Your task to perform on an android device: What's on my calendar today? Image 0: 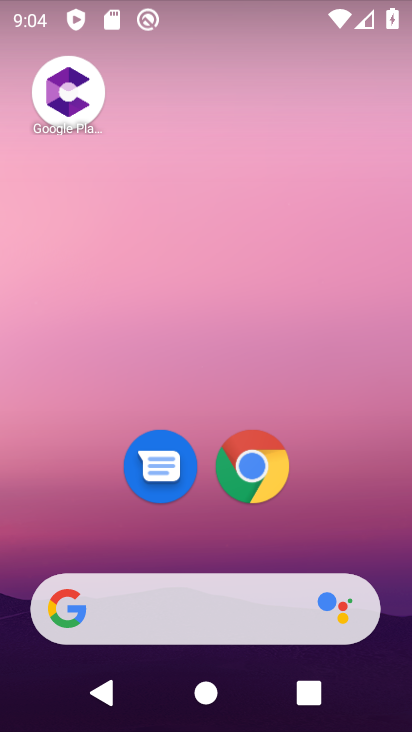
Step 0: drag from (262, 548) to (168, 6)
Your task to perform on an android device: What's on my calendar today? Image 1: 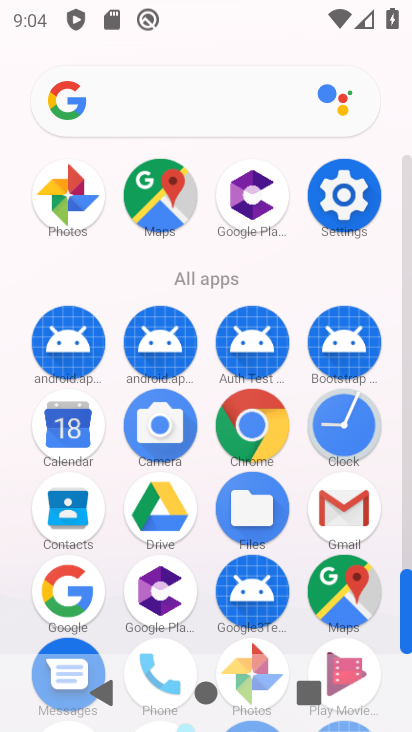
Step 1: drag from (283, 517) to (248, 114)
Your task to perform on an android device: What's on my calendar today? Image 2: 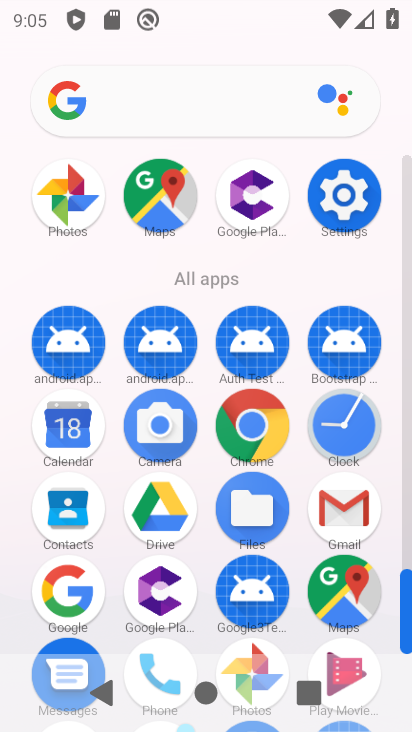
Step 2: drag from (211, 475) to (182, 97)
Your task to perform on an android device: What's on my calendar today? Image 3: 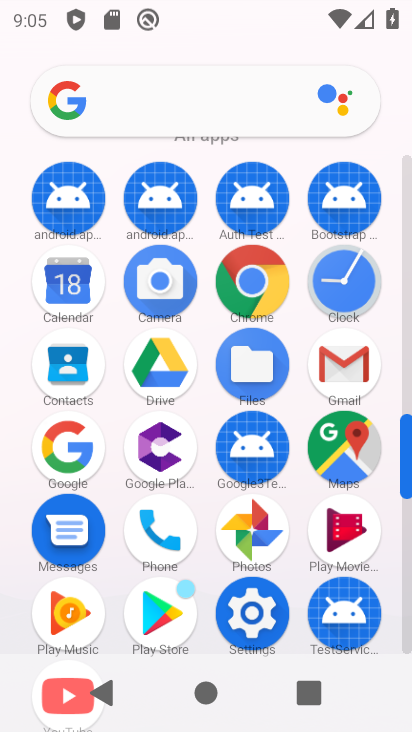
Step 3: drag from (204, 435) to (190, 150)
Your task to perform on an android device: What's on my calendar today? Image 4: 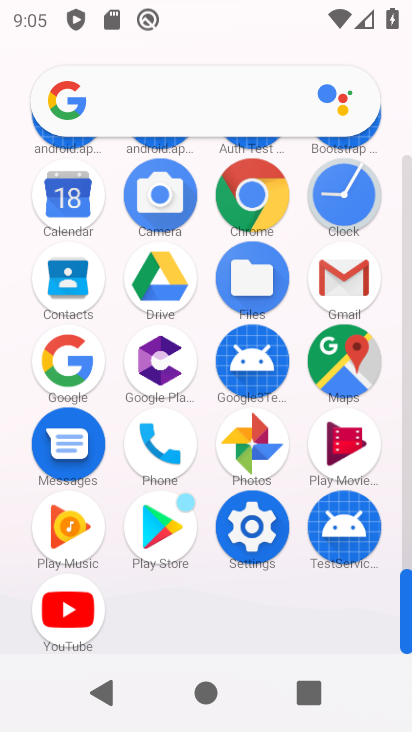
Step 4: drag from (204, 450) to (222, 114)
Your task to perform on an android device: What's on my calendar today? Image 5: 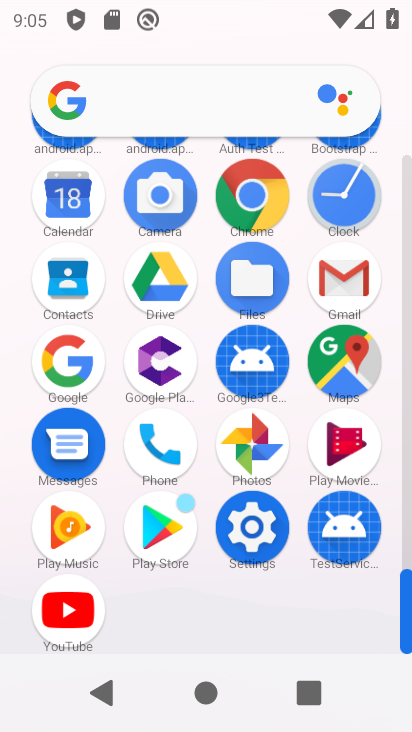
Step 5: drag from (195, 360) to (190, 164)
Your task to perform on an android device: What's on my calendar today? Image 6: 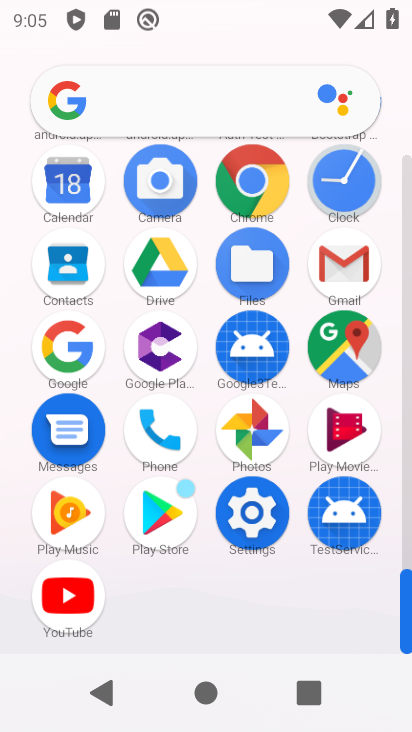
Step 6: drag from (193, 326) to (194, 118)
Your task to perform on an android device: What's on my calendar today? Image 7: 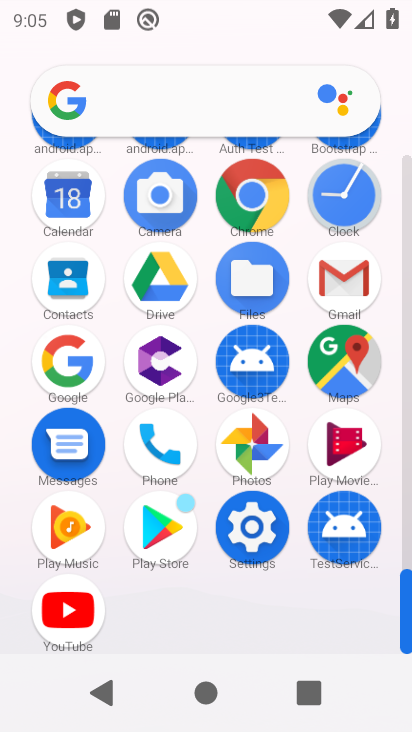
Step 7: drag from (217, 465) to (211, 103)
Your task to perform on an android device: What's on my calendar today? Image 8: 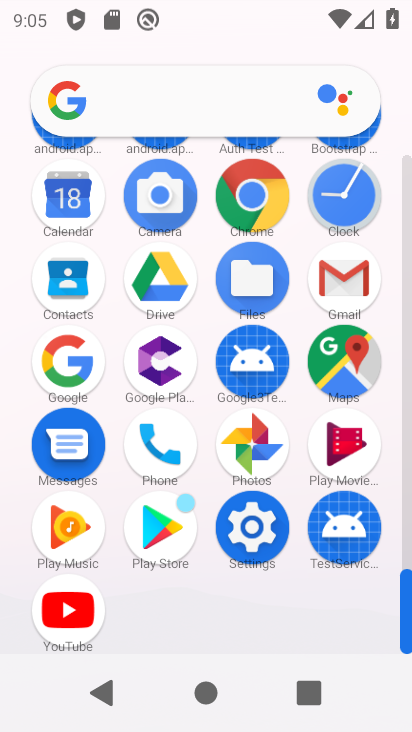
Step 8: drag from (193, 277) to (236, 563)
Your task to perform on an android device: What's on my calendar today? Image 9: 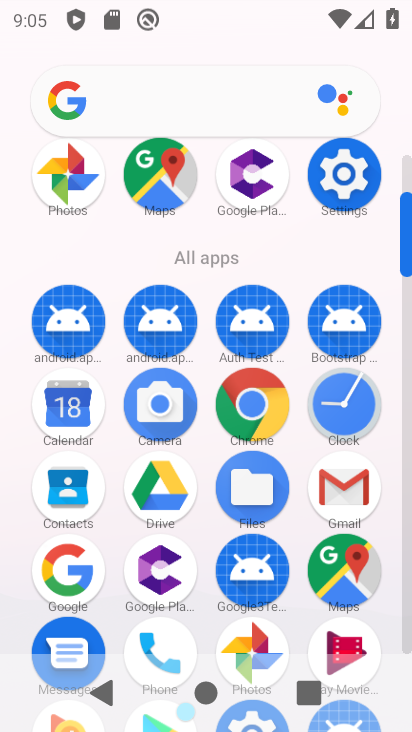
Step 9: drag from (246, 339) to (212, 553)
Your task to perform on an android device: What's on my calendar today? Image 10: 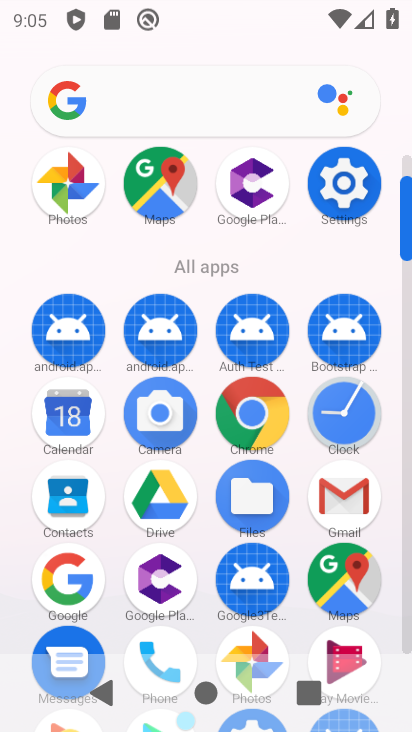
Step 10: drag from (184, 500) to (203, 578)
Your task to perform on an android device: What's on my calendar today? Image 11: 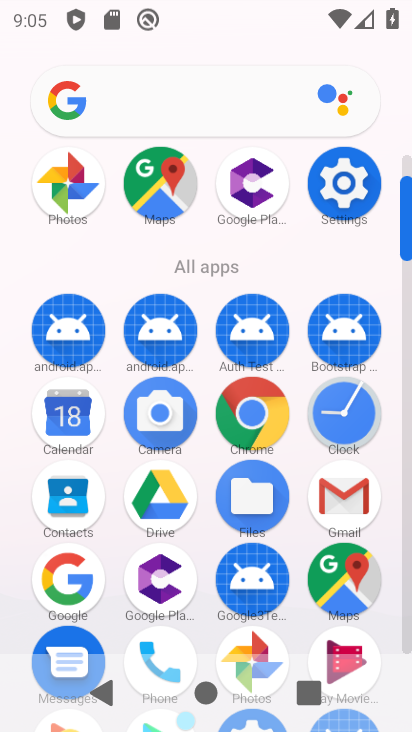
Step 11: drag from (247, 442) to (255, 496)
Your task to perform on an android device: What's on my calendar today? Image 12: 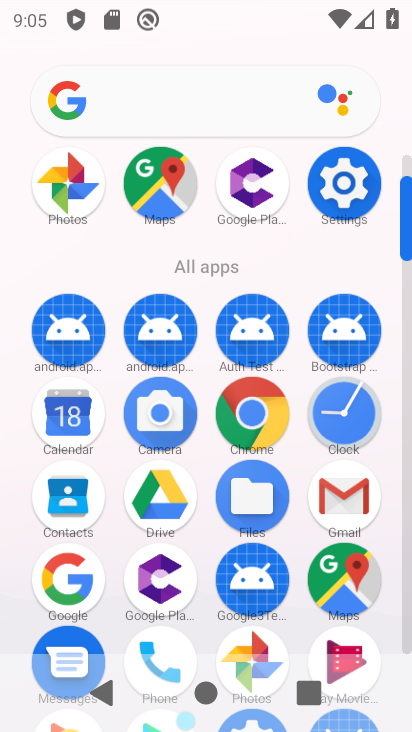
Step 12: drag from (188, 445) to (141, 105)
Your task to perform on an android device: What's on my calendar today? Image 13: 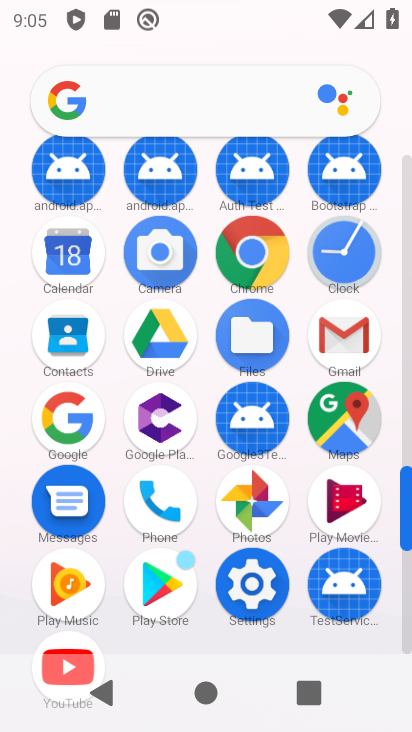
Step 13: drag from (169, 397) to (166, 67)
Your task to perform on an android device: What's on my calendar today? Image 14: 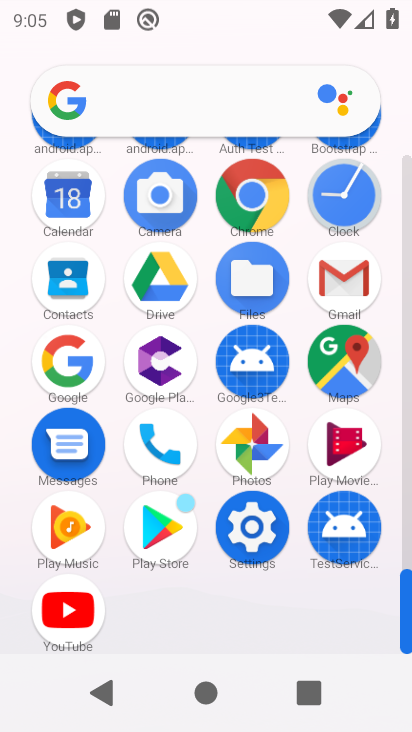
Step 14: drag from (222, 464) to (179, 40)
Your task to perform on an android device: What's on my calendar today? Image 15: 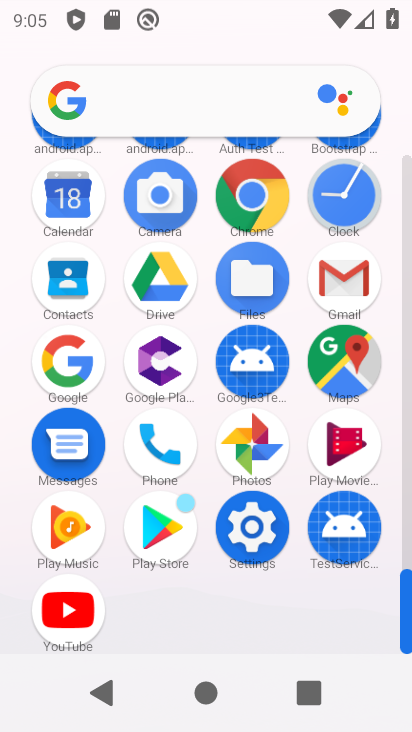
Step 15: drag from (194, 376) to (196, 512)
Your task to perform on an android device: What's on my calendar today? Image 16: 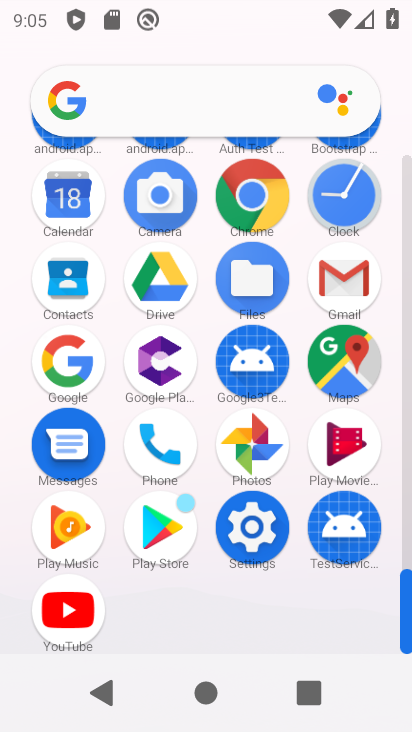
Step 16: drag from (205, 289) to (234, 595)
Your task to perform on an android device: What's on my calendar today? Image 17: 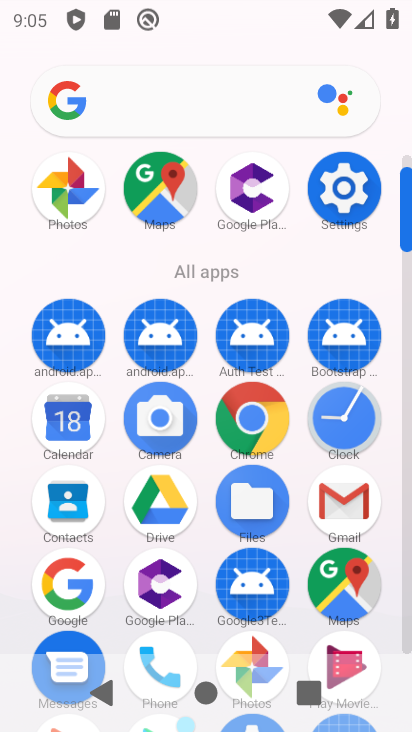
Step 17: drag from (242, 285) to (242, 518)
Your task to perform on an android device: What's on my calendar today? Image 18: 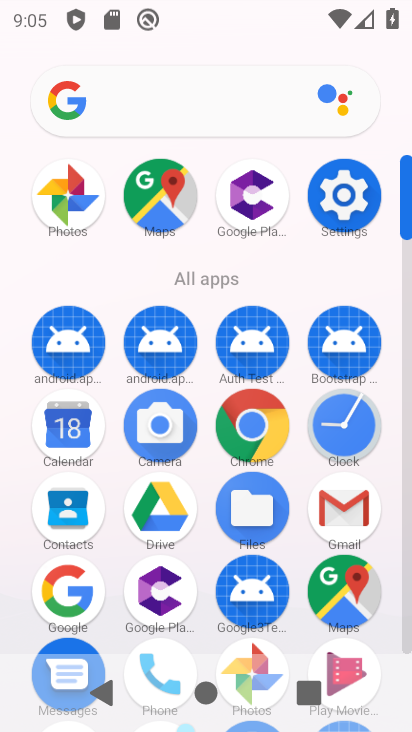
Step 18: drag from (217, 367) to (192, 117)
Your task to perform on an android device: What's on my calendar today? Image 19: 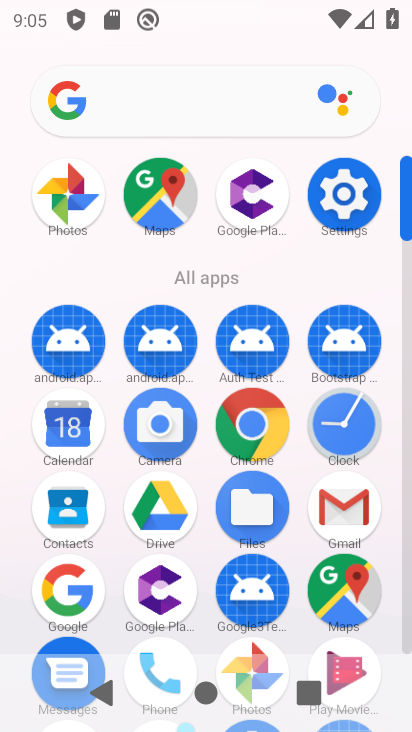
Step 19: drag from (188, 330) to (190, 112)
Your task to perform on an android device: What's on my calendar today? Image 20: 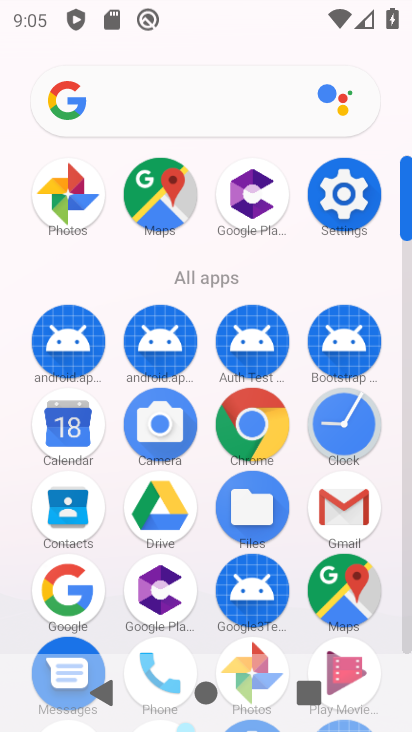
Step 20: drag from (196, 386) to (222, 97)
Your task to perform on an android device: What's on my calendar today? Image 21: 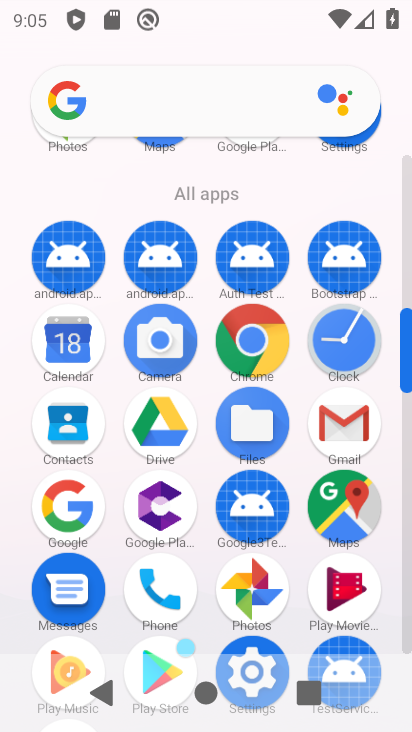
Step 21: drag from (202, 348) to (192, 135)
Your task to perform on an android device: What's on my calendar today? Image 22: 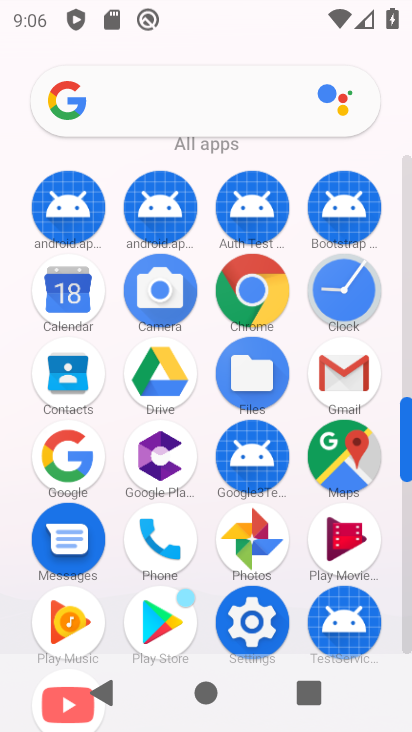
Step 22: click (68, 291)
Your task to perform on an android device: What's on my calendar today? Image 23: 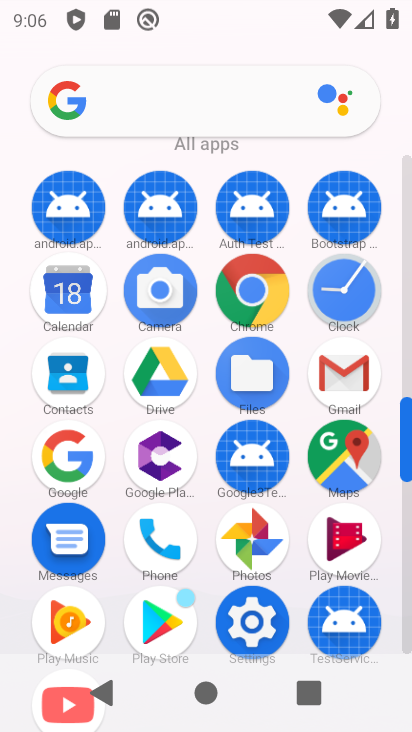
Step 23: click (67, 292)
Your task to perform on an android device: What's on my calendar today? Image 24: 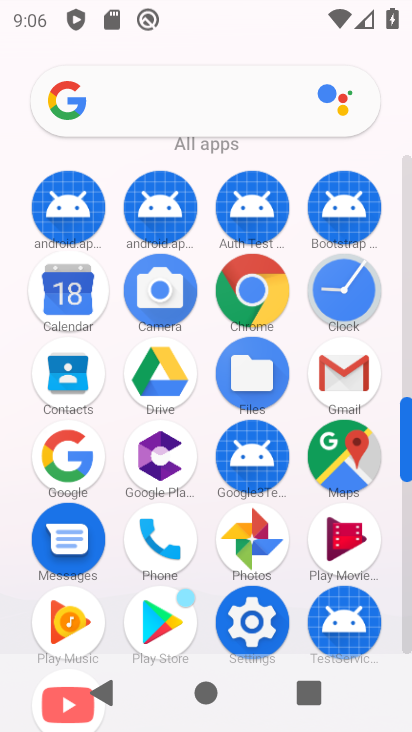
Step 24: click (67, 292)
Your task to perform on an android device: What's on my calendar today? Image 25: 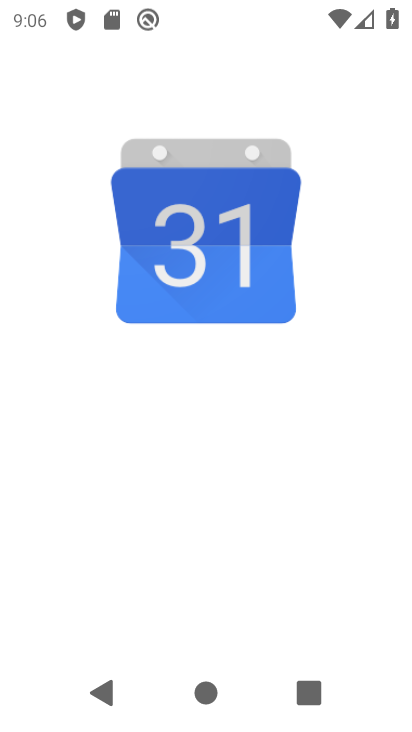
Step 25: click (74, 287)
Your task to perform on an android device: What's on my calendar today? Image 26: 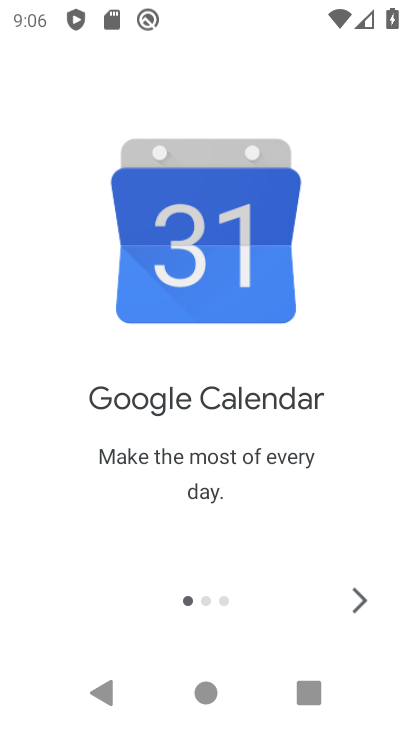
Step 26: click (364, 596)
Your task to perform on an android device: What's on my calendar today? Image 27: 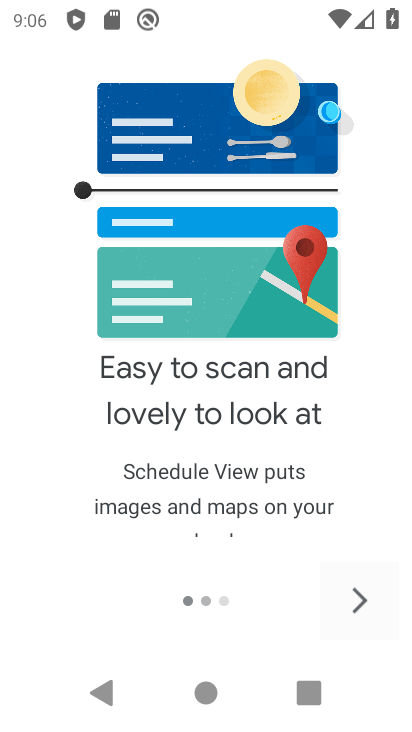
Step 27: click (364, 596)
Your task to perform on an android device: What's on my calendar today? Image 28: 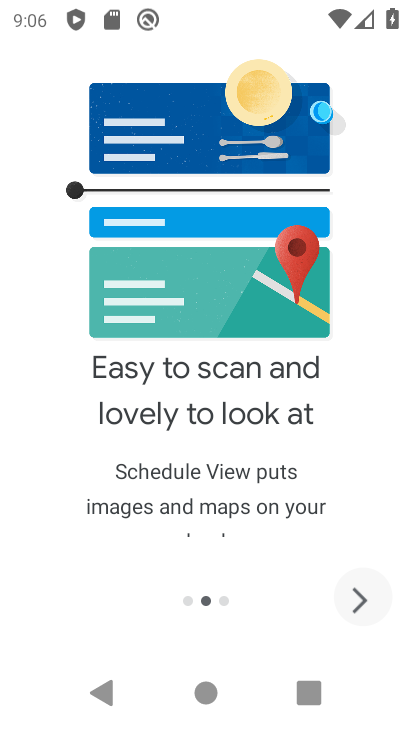
Step 28: click (364, 596)
Your task to perform on an android device: What's on my calendar today? Image 29: 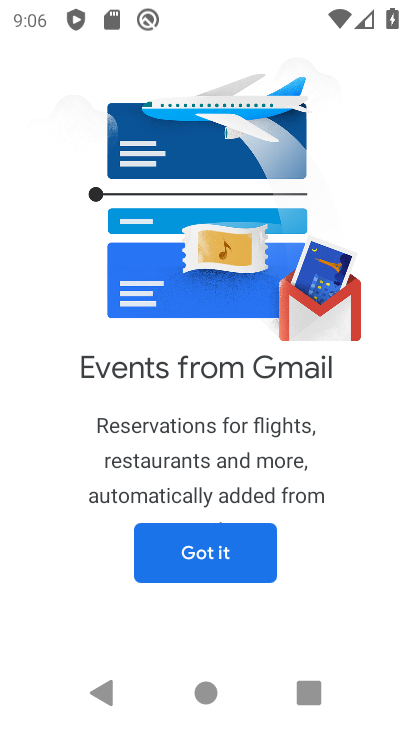
Step 29: click (364, 596)
Your task to perform on an android device: What's on my calendar today? Image 30: 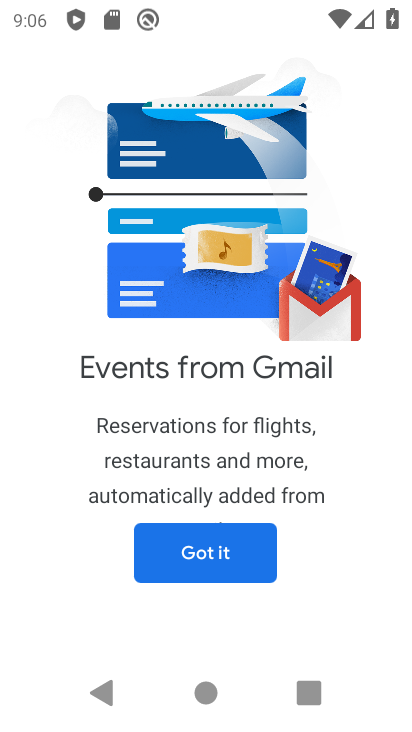
Step 30: click (364, 596)
Your task to perform on an android device: What's on my calendar today? Image 31: 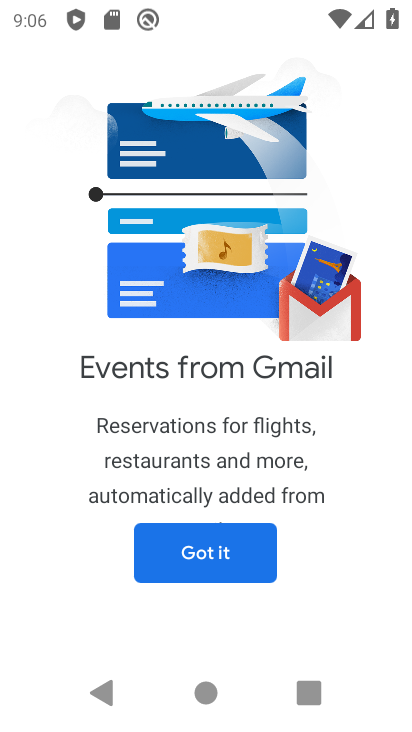
Step 31: click (364, 596)
Your task to perform on an android device: What's on my calendar today? Image 32: 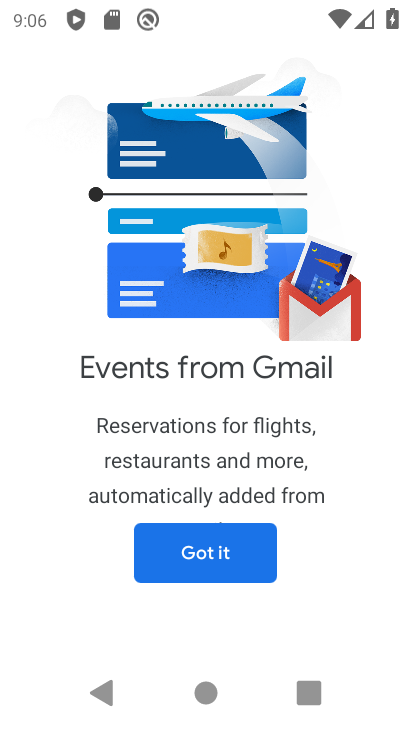
Step 32: click (225, 559)
Your task to perform on an android device: What's on my calendar today? Image 33: 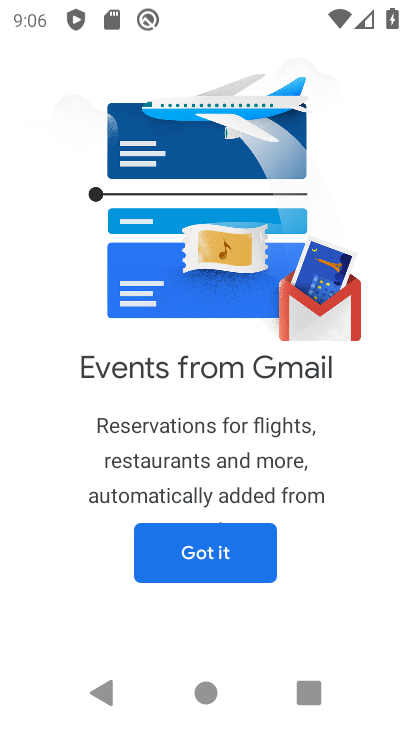
Step 33: click (225, 559)
Your task to perform on an android device: What's on my calendar today? Image 34: 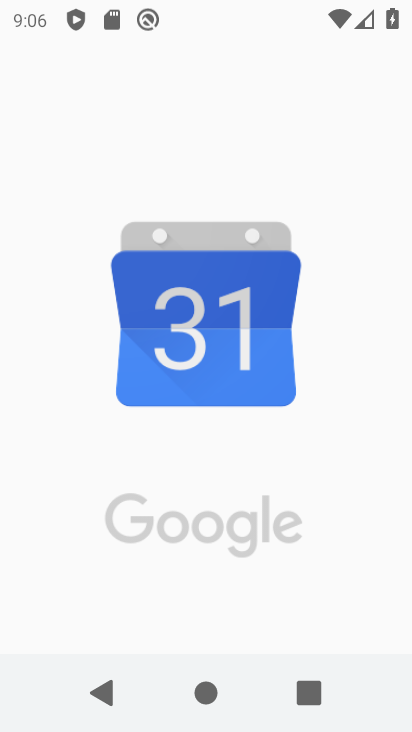
Step 34: click (224, 559)
Your task to perform on an android device: What's on my calendar today? Image 35: 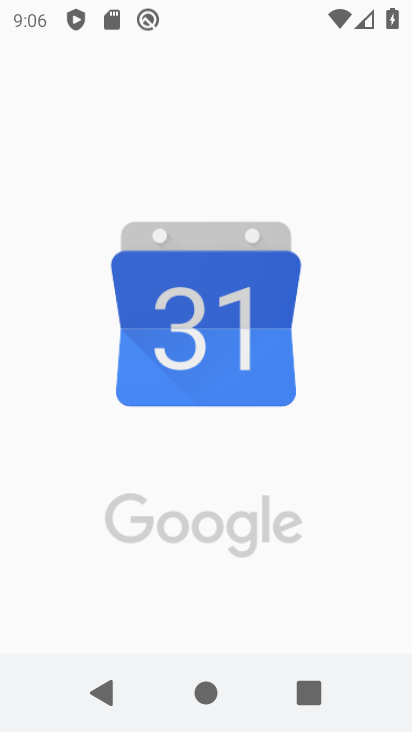
Step 35: click (223, 559)
Your task to perform on an android device: What's on my calendar today? Image 36: 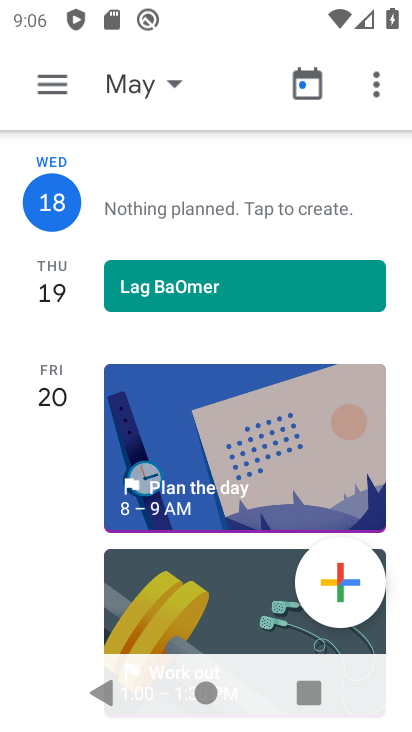
Step 36: click (122, 144)
Your task to perform on an android device: What's on my calendar today? Image 37: 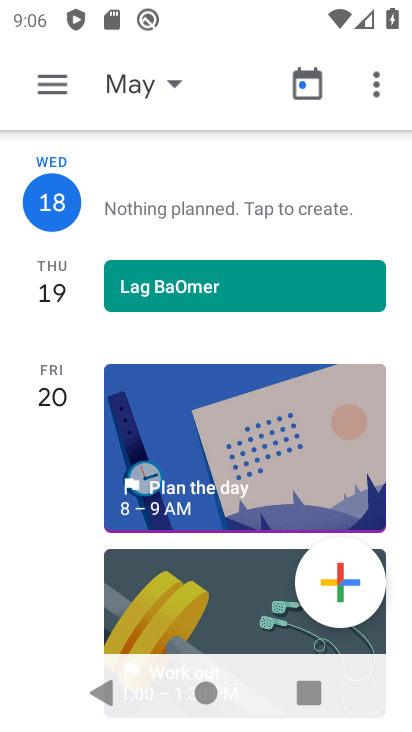
Step 37: drag from (166, 367) to (169, 112)
Your task to perform on an android device: What's on my calendar today? Image 38: 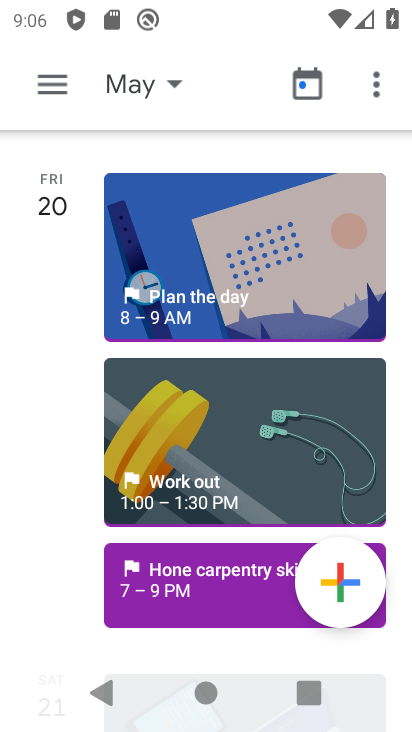
Step 38: drag from (203, 284) to (217, 534)
Your task to perform on an android device: What's on my calendar today? Image 39: 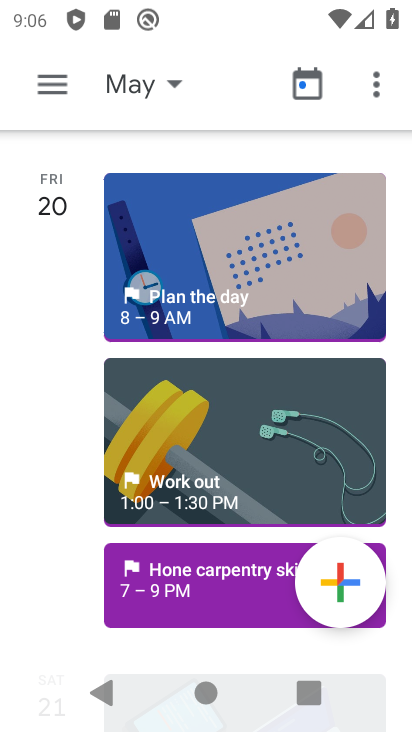
Step 39: drag from (166, 258) to (240, 567)
Your task to perform on an android device: What's on my calendar today? Image 40: 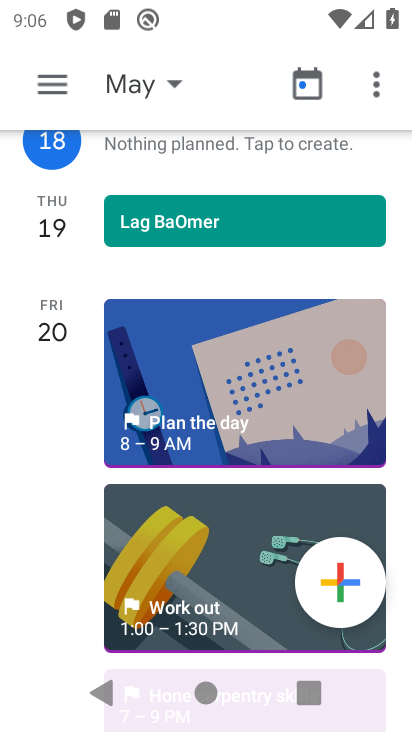
Step 40: click (172, 220)
Your task to perform on an android device: What's on my calendar today? Image 41: 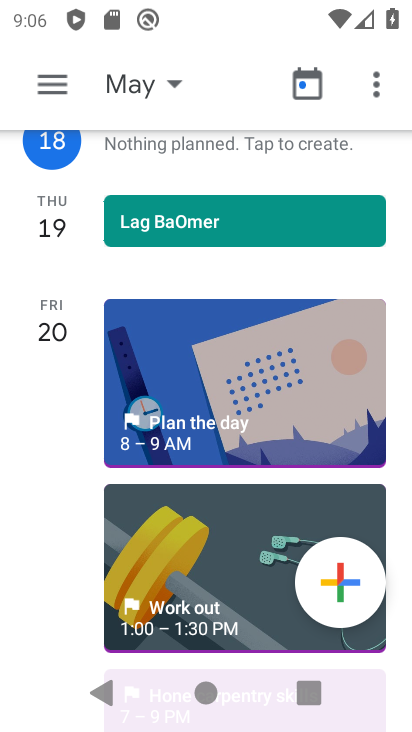
Step 41: click (172, 220)
Your task to perform on an android device: What's on my calendar today? Image 42: 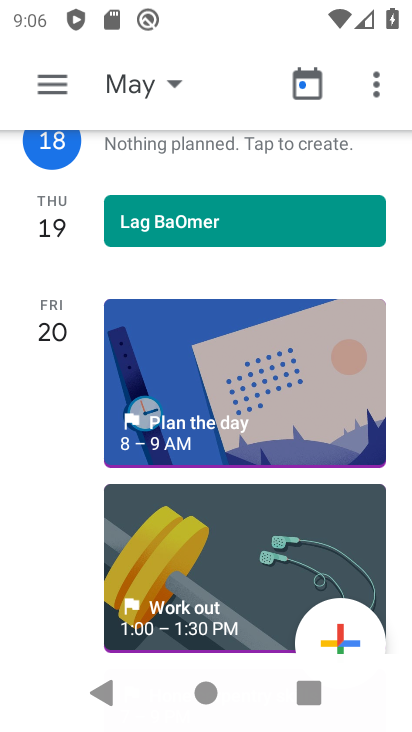
Step 42: click (172, 220)
Your task to perform on an android device: What's on my calendar today? Image 43: 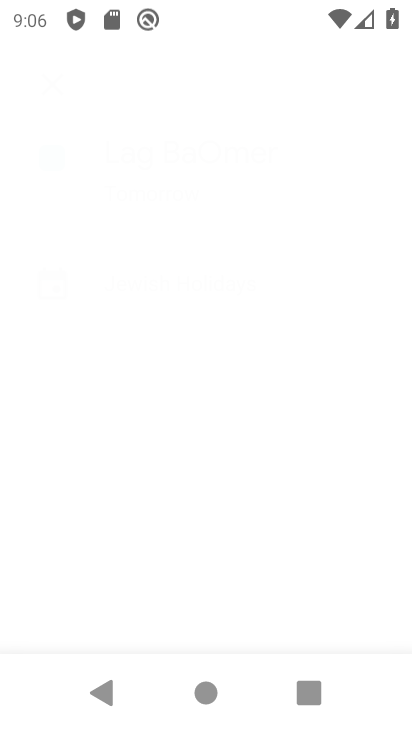
Step 43: click (172, 221)
Your task to perform on an android device: What's on my calendar today? Image 44: 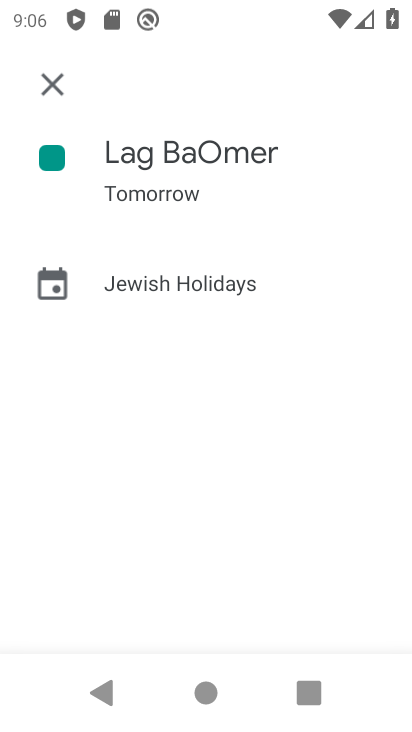
Step 44: click (172, 221)
Your task to perform on an android device: What's on my calendar today? Image 45: 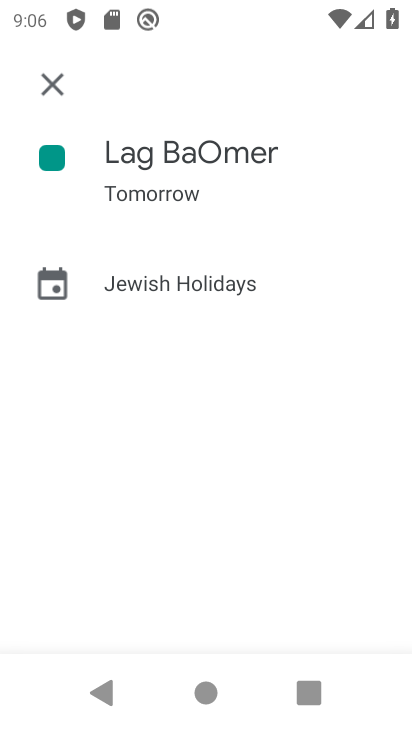
Step 45: click (34, 86)
Your task to perform on an android device: What's on my calendar today? Image 46: 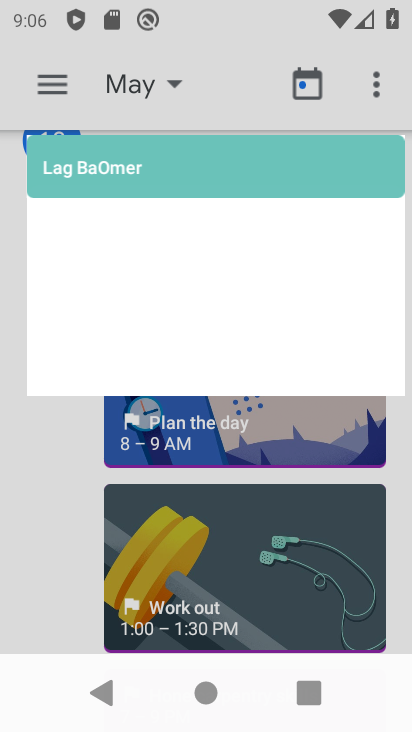
Step 46: click (36, 84)
Your task to perform on an android device: What's on my calendar today? Image 47: 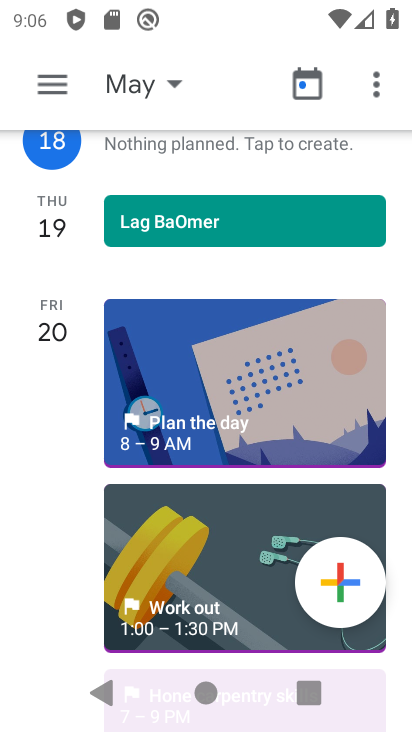
Step 47: click (39, 84)
Your task to perform on an android device: What's on my calendar today? Image 48: 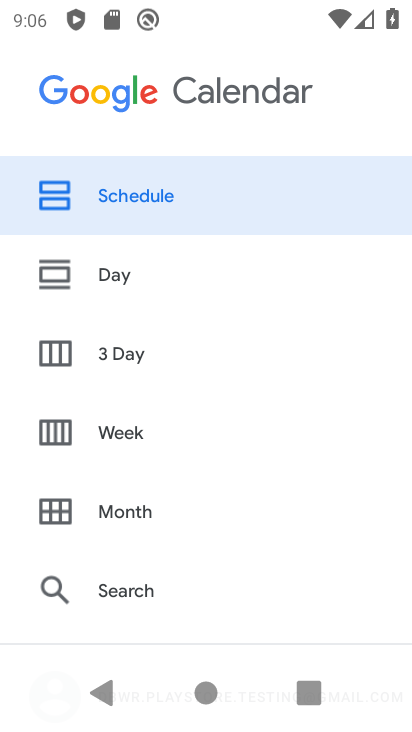
Step 48: click (148, 199)
Your task to perform on an android device: What's on my calendar today? Image 49: 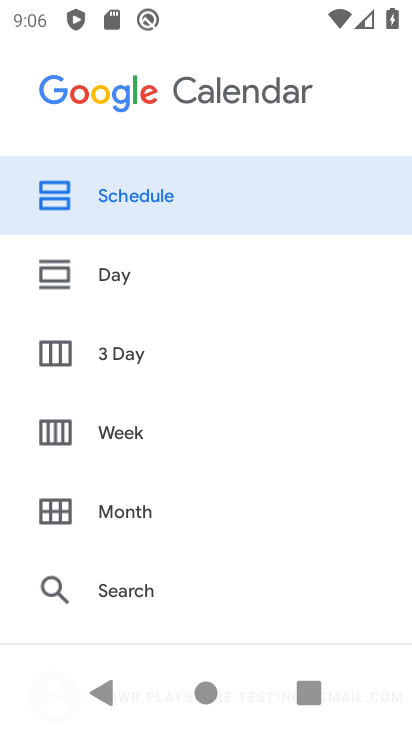
Step 49: click (148, 199)
Your task to perform on an android device: What's on my calendar today? Image 50: 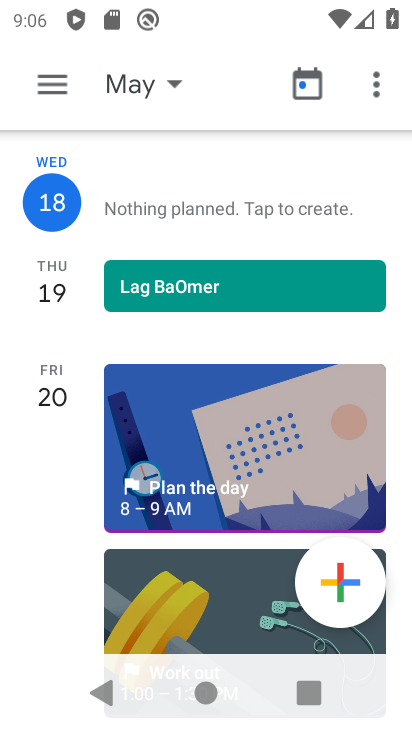
Step 50: drag from (192, 443) to (162, 234)
Your task to perform on an android device: What's on my calendar today? Image 51: 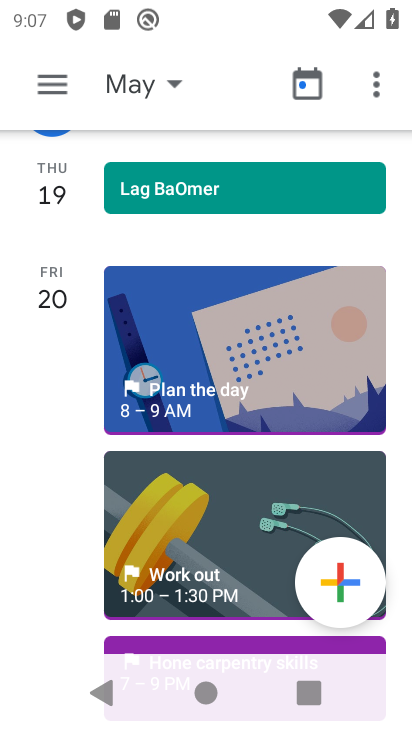
Step 51: drag from (209, 438) to (204, 80)
Your task to perform on an android device: What's on my calendar today? Image 52: 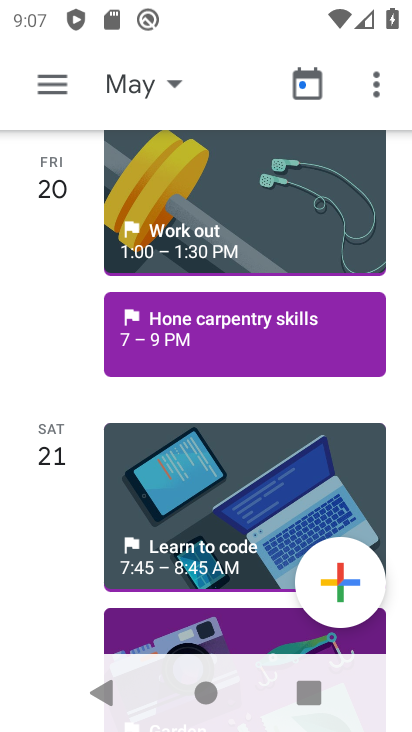
Step 52: drag from (189, 168) to (178, 54)
Your task to perform on an android device: What's on my calendar today? Image 53: 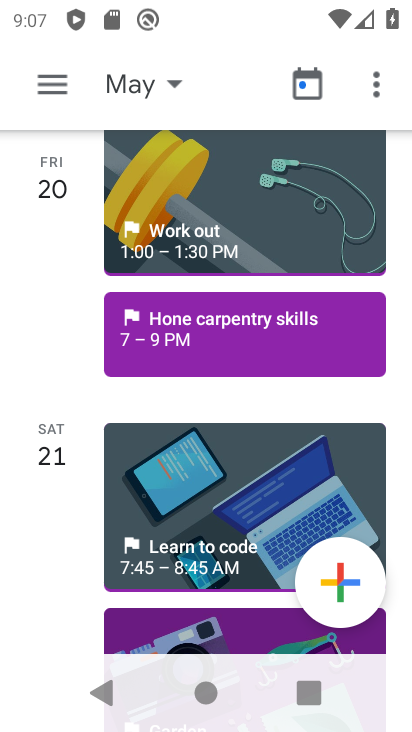
Step 53: drag from (175, 49) to (206, 72)
Your task to perform on an android device: What's on my calendar today? Image 54: 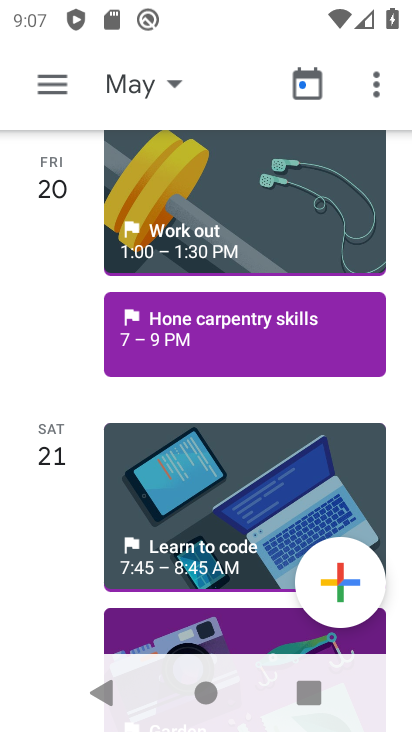
Step 54: drag from (239, 442) to (206, 128)
Your task to perform on an android device: What's on my calendar today? Image 55: 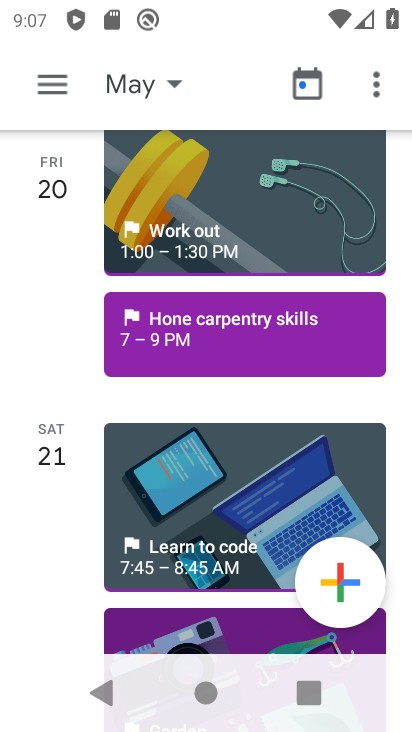
Step 55: drag from (224, 483) to (216, 203)
Your task to perform on an android device: What's on my calendar today? Image 56: 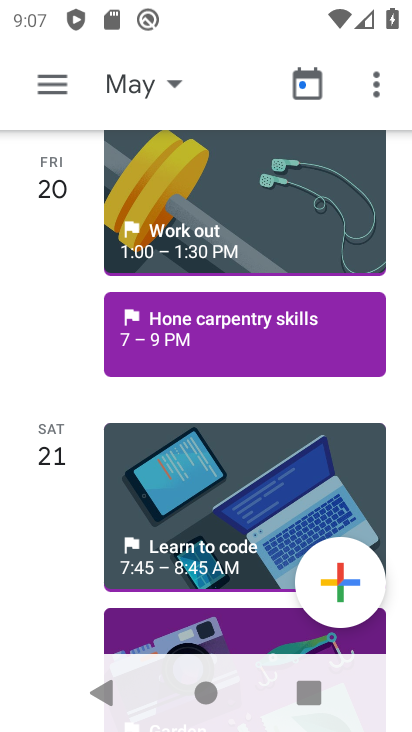
Step 56: drag from (209, 495) to (134, 122)
Your task to perform on an android device: What's on my calendar today? Image 57: 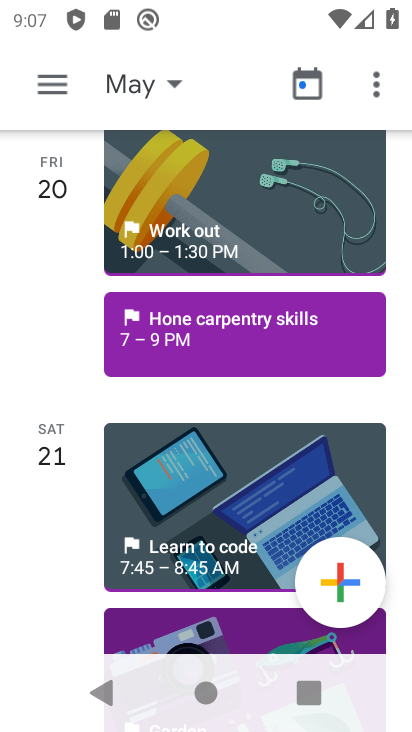
Step 57: drag from (241, 535) to (232, 241)
Your task to perform on an android device: What's on my calendar today? Image 58: 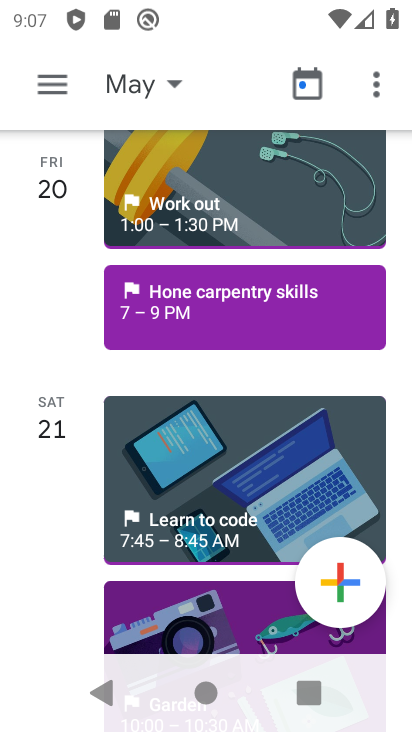
Step 58: drag from (217, 380) to (205, 107)
Your task to perform on an android device: What's on my calendar today? Image 59: 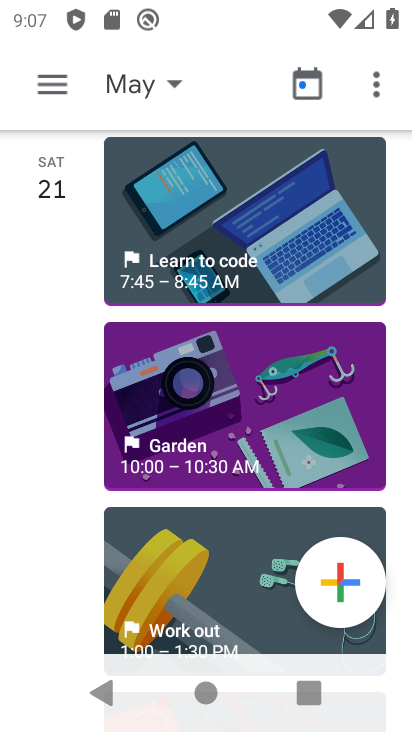
Step 59: drag from (184, 256) to (191, 135)
Your task to perform on an android device: What's on my calendar today? Image 60: 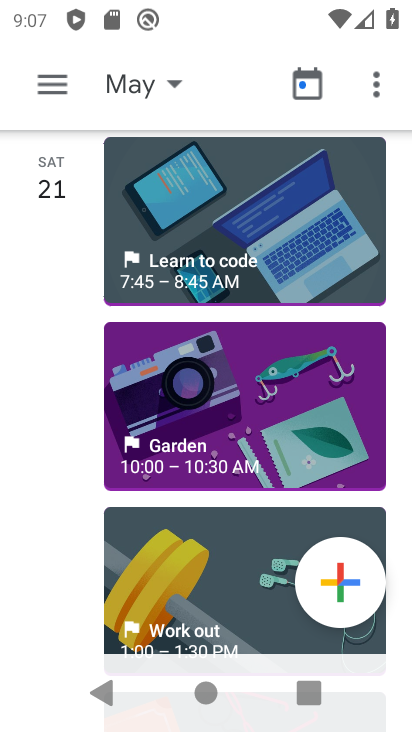
Step 60: press back button
Your task to perform on an android device: What's on my calendar today? Image 61: 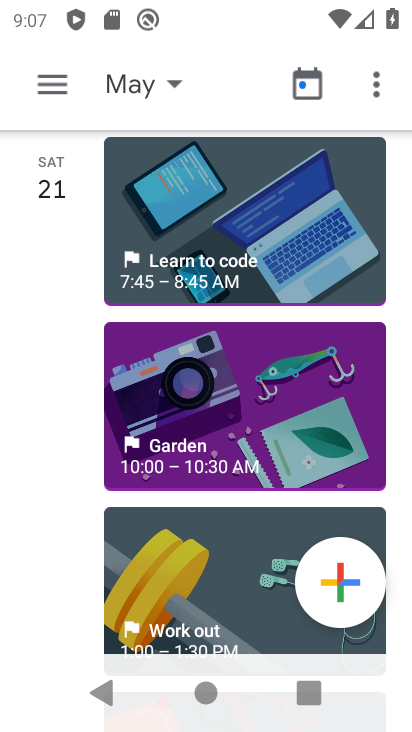
Step 61: press back button
Your task to perform on an android device: What's on my calendar today? Image 62: 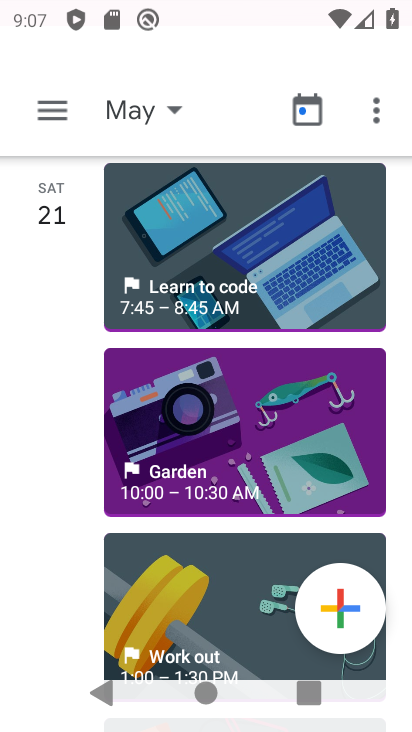
Step 62: drag from (206, 79) to (186, 44)
Your task to perform on an android device: What's on my calendar today? Image 63: 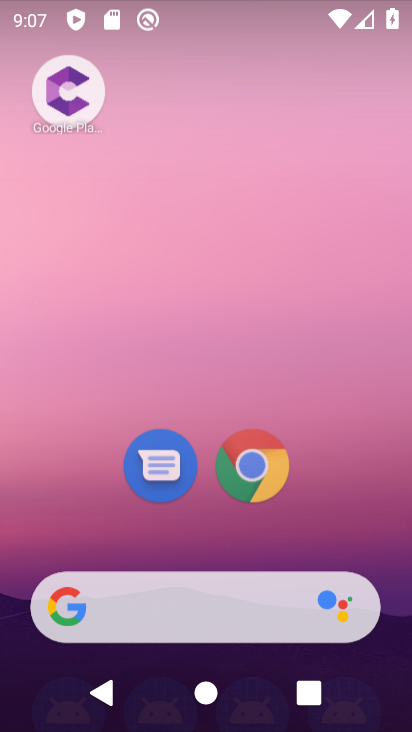
Step 63: drag from (221, 290) to (186, 112)
Your task to perform on an android device: What's on my calendar today? Image 64: 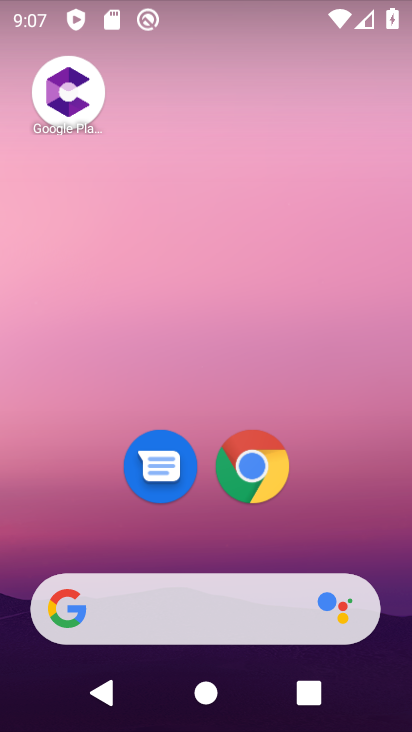
Step 64: drag from (130, 0) to (198, 33)
Your task to perform on an android device: What's on my calendar today? Image 65: 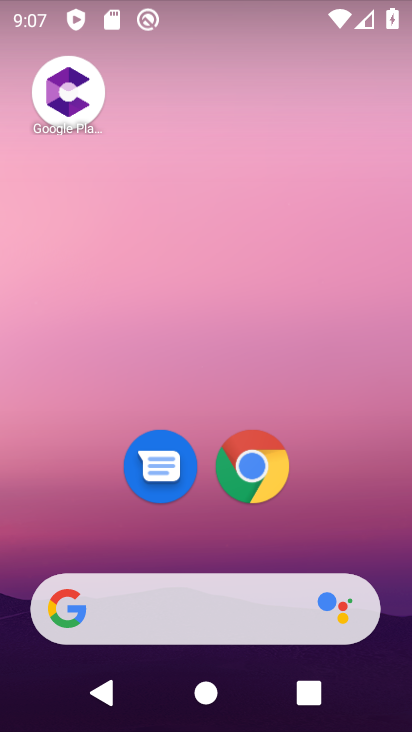
Step 65: drag from (200, 487) to (184, 174)
Your task to perform on an android device: What's on my calendar today? Image 66: 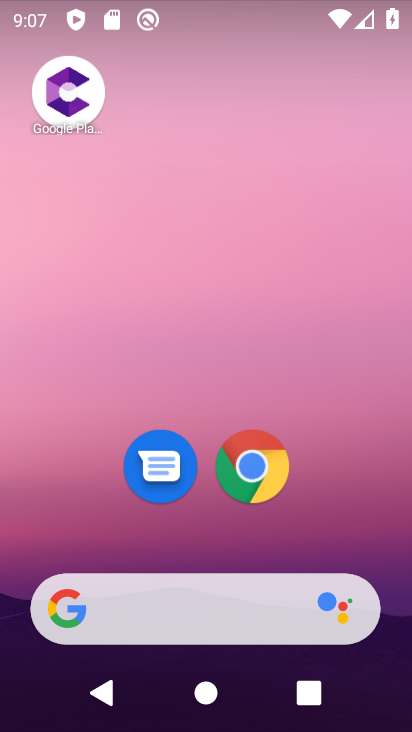
Step 66: drag from (190, 184) to (182, 148)
Your task to perform on an android device: What's on my calendar today? Image 67: 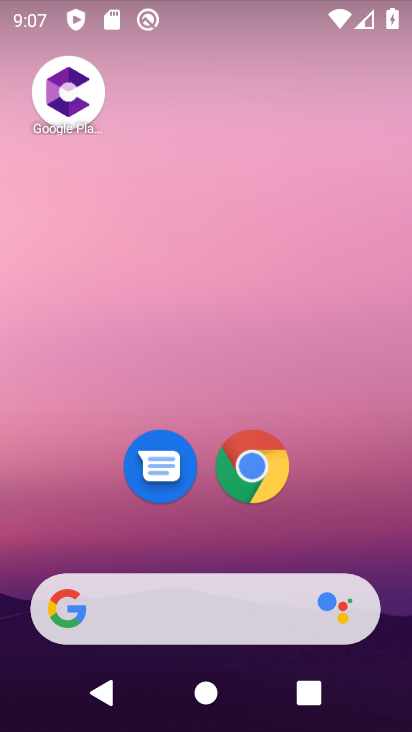
Step 67: drag from (163, 469) to (145, 40)
Your task to perform on an android device: What's on my calendar today? Image 68: 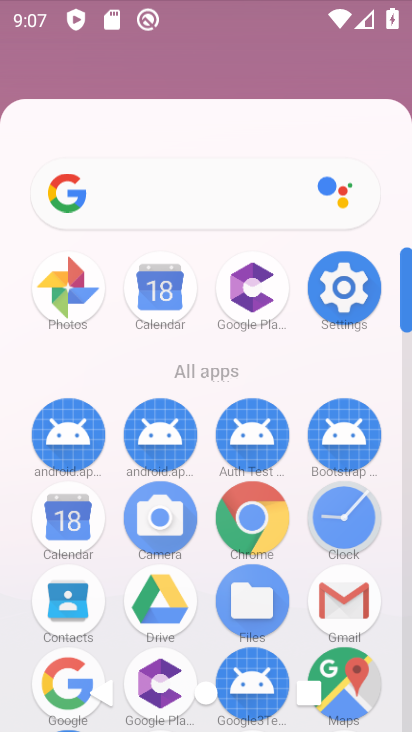
Step 68: drag from (284, 498) to (281, 189)
Your task to perform on an android device: What's on my calendar today? Image 69: 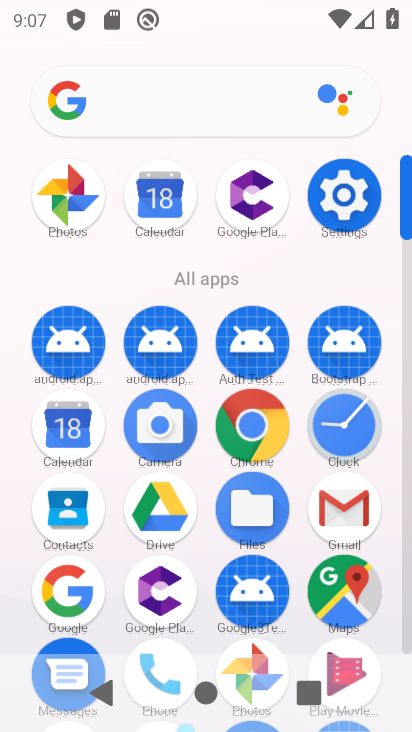
Step 69: drag from (262, 583) to (233, 10)
Your task to perform on an android device: What's on my calendar today? Image 70: 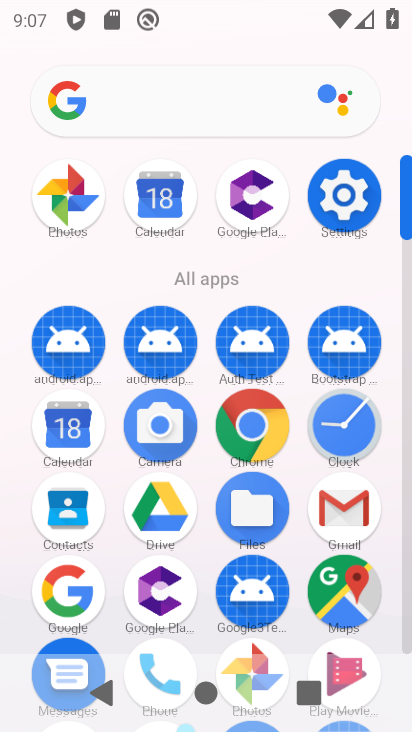
Step 70: drag from (235, 562) to (230, 7)
Your task to perform on an android device: What's on my calendar today? Image 71: 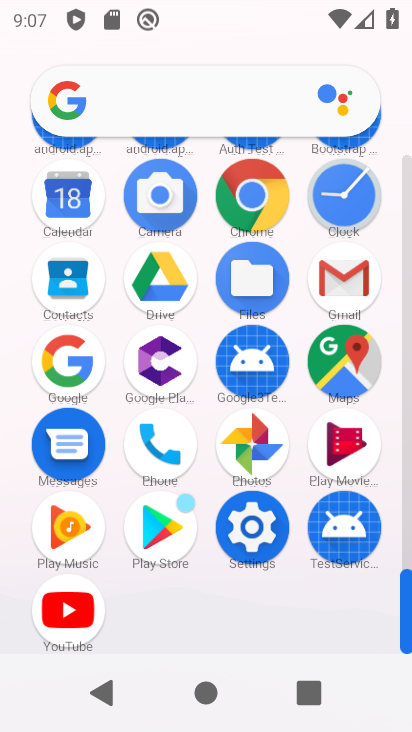
Step 71: click (206, 97)
Your task to perform on an android device: What's on my calendar today? Image 72: 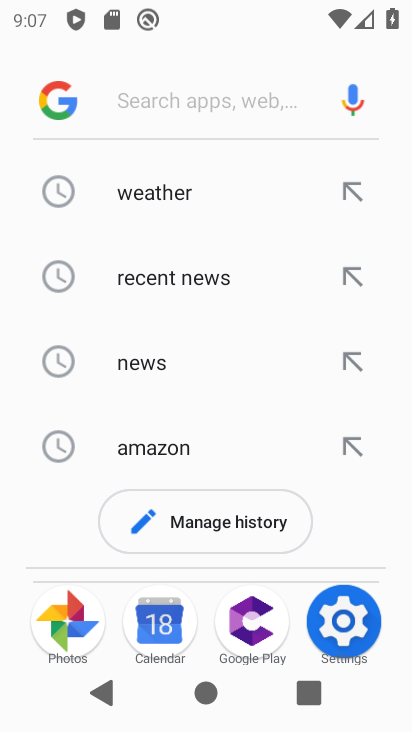
Step 72: press back button
Your task to perform on an android device: What's on my calendar today? Image 73: 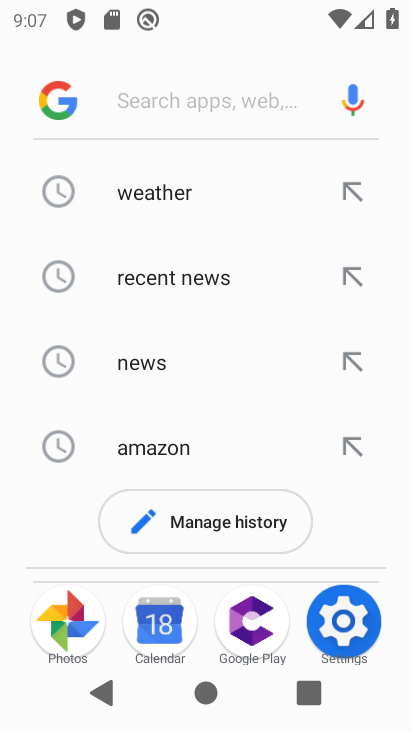
Step 73: press back button
Your task to perform on an android device: What's on my calendar today? Image 74: 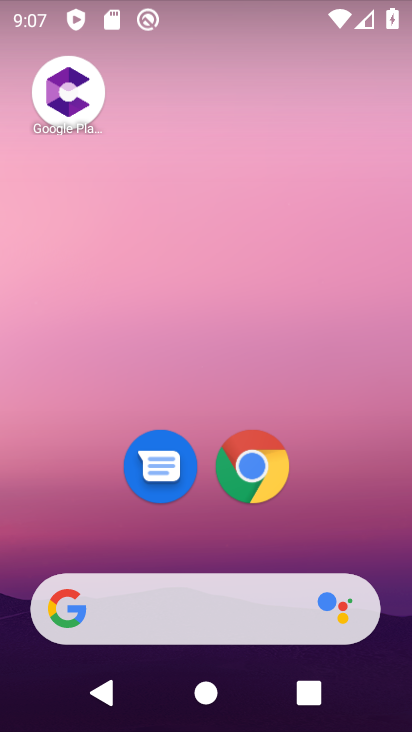
Step 74: click (353, 618)
Your task to perform on an android device: What's on my calendar today? Image 75: 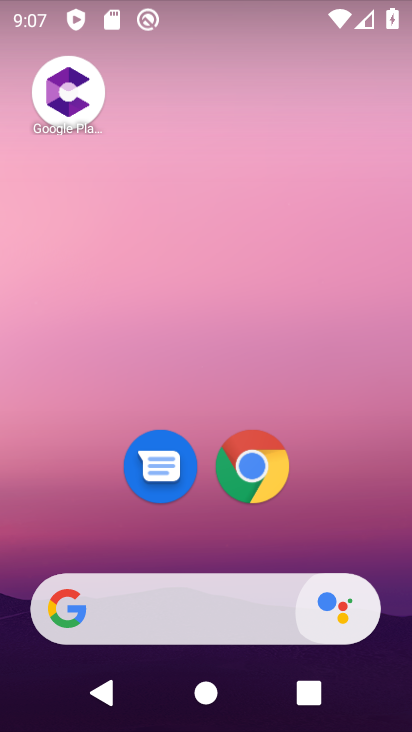
Step 75: click (350, 619)
Your task to perform on an android device: What's on my calendar today? Image 76: 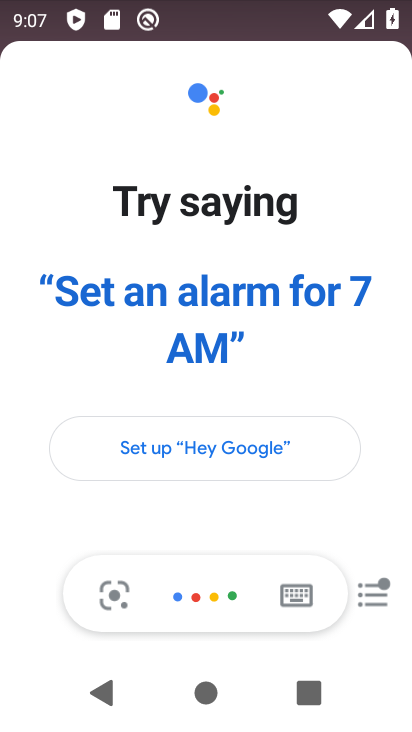
Step 76: click (345, 626)
Your task to perform on an android device: What's on my calendar today? Image 77: 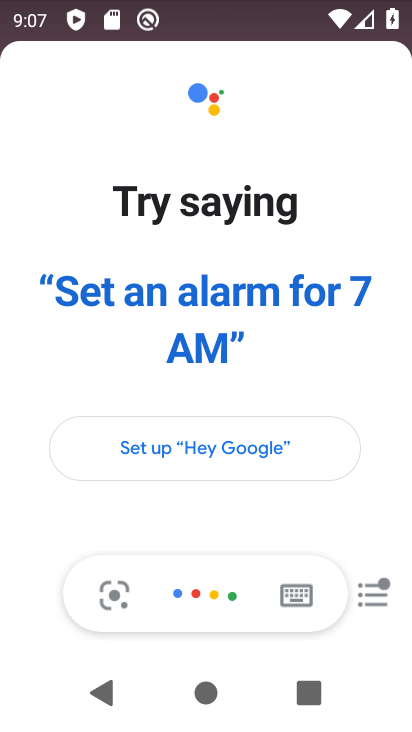
Step 77: click (343, 624)
Your task to perform on an android device: What's on my calendar today? Image 78: 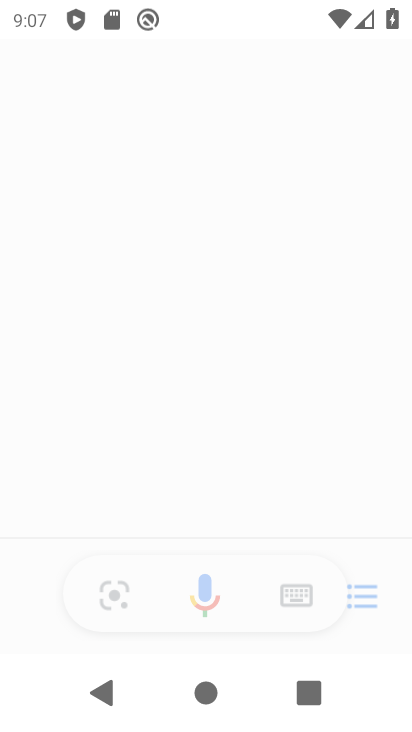
Step 78: drag from (332, 597) to (76, 32)
Your task to perform on an android device: What's on my calendar today? Image 79: 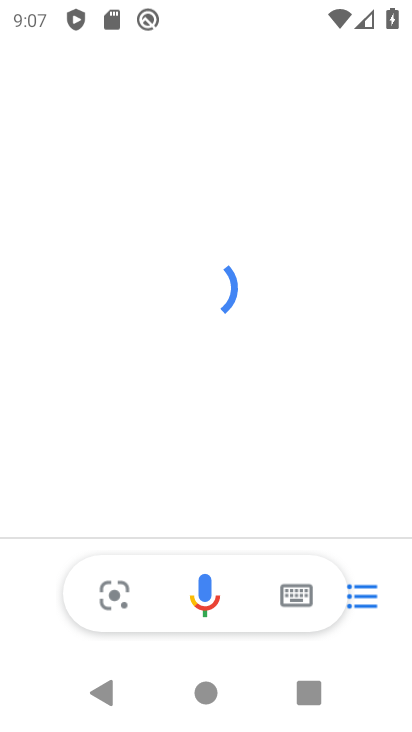
Step 79: press home button
Your task to perform on an android device: What's on my calendar today? Image 80: 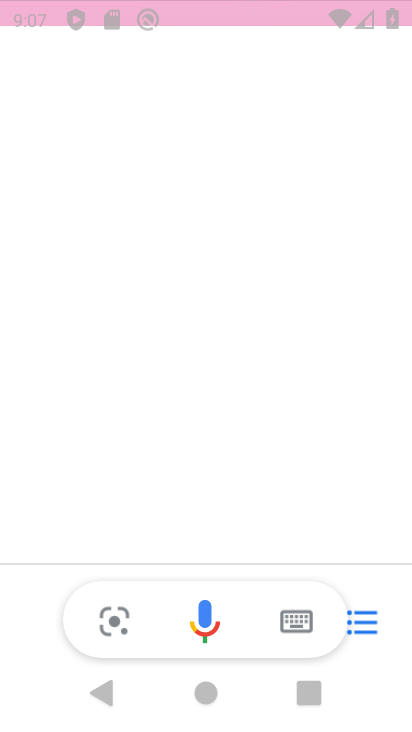
Step 80: press home button
Your task to perform on an android device: What's on my calendar today? Image 81: 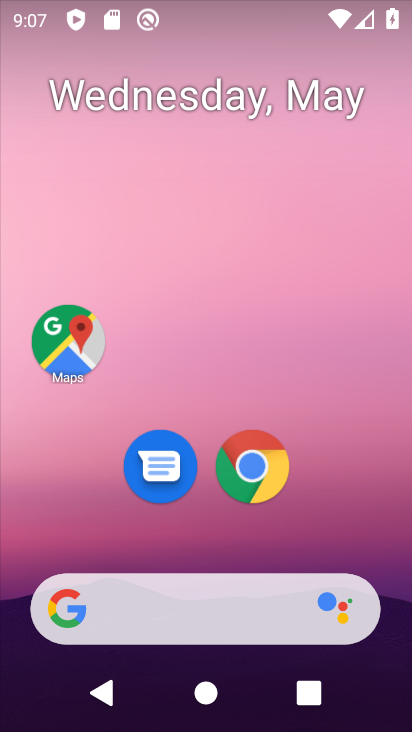
Step 81: drag from (304, 560) to (224, 150)
Your task to perform on an android device: What's on my calendar today? Image 82: 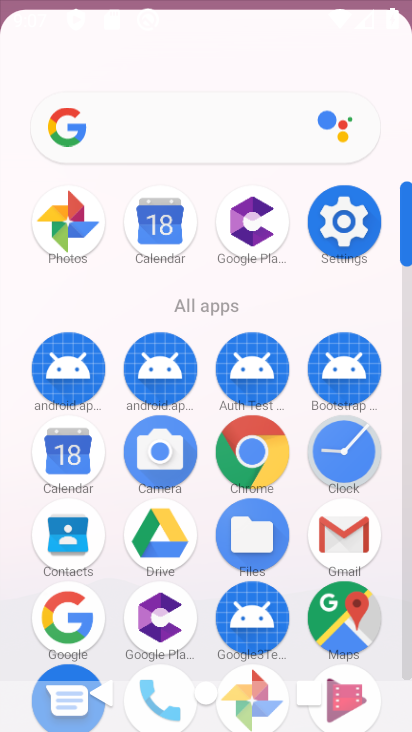
Step 82: drag from (264, 364) to (209, 78)
Your task to perform on an android device: What's on my calendar today? Image 83: 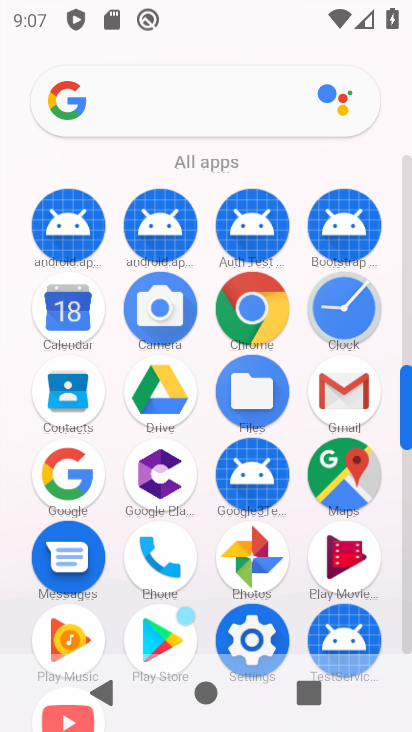
Step 83: click (208, 27)
Your task to perform on an android device: What's on my calendar today? Image 84: 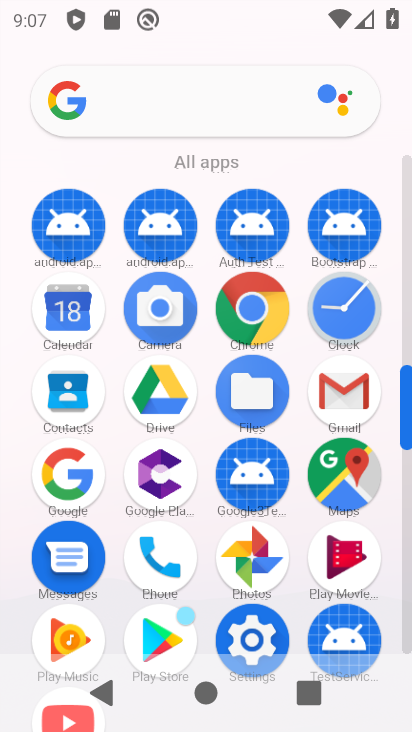
Step 84: click (70, 313)
Your task to perform on an android device: What's on my calendar today? Image 85: 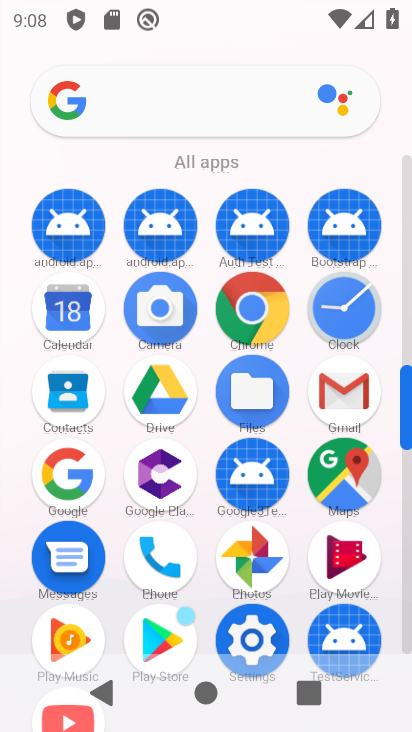
Step 85: click (70, 315)
Your task to perform on an android device: What's on my calendar today? Image 86: 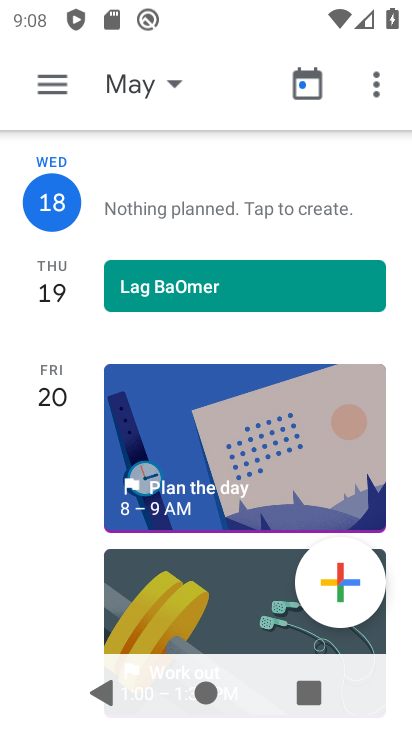
Step 86: click (67, 313)
Your task to perform on an android device: What's on my calendar today? Image 87: 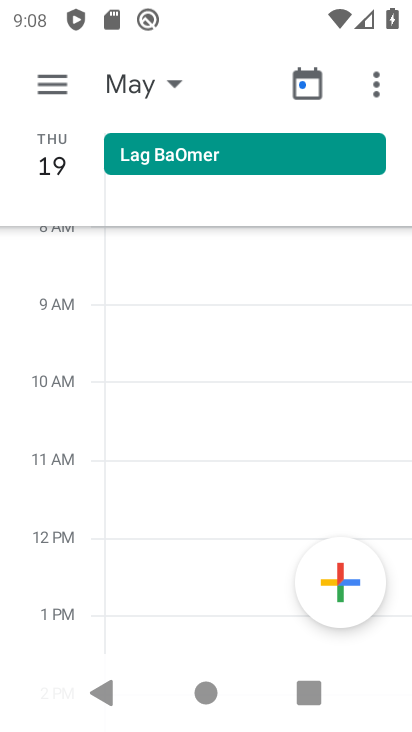
Step 87: click (155, 156)
Your task to perform on an android device: What's on my calendar today? Image 88: 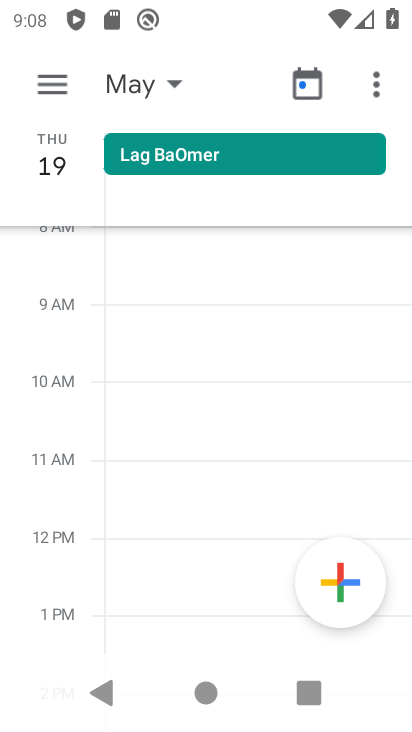
Step 88: click (154, 155)
Your task to perform on an android device: What's on my calendar today? Image 89: 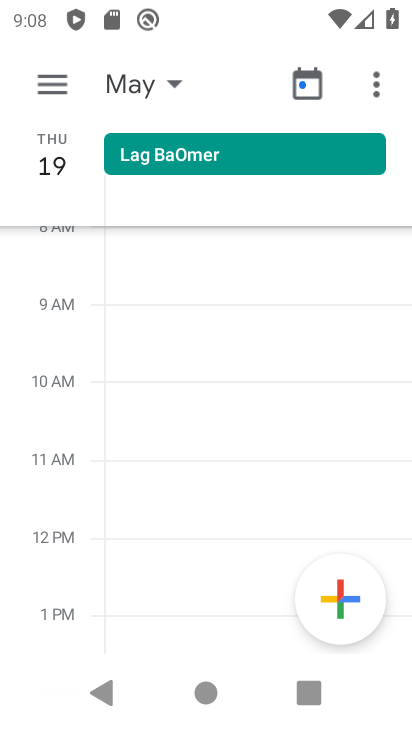
Step 89: click (154, 155)
Your task to perform on an android device: What's on my calendar today? Image 90: 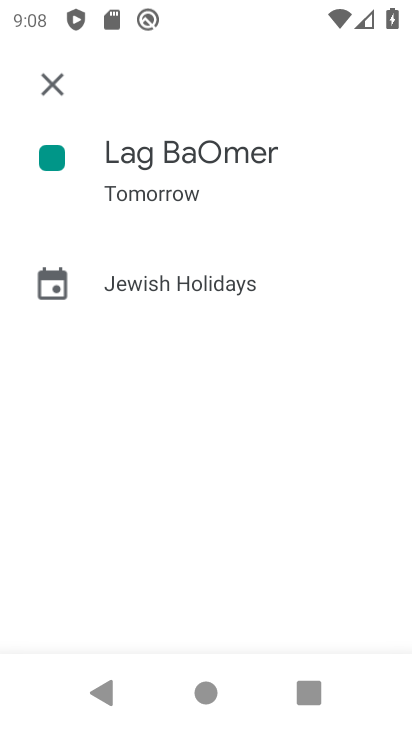
Step 90: click (156, 154)
Your task to perform on an android device: What's on my calendar today? Image 91: 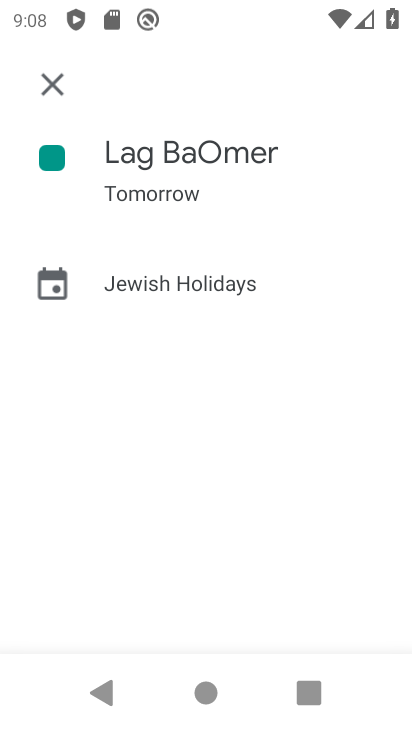
Step 91: click (56, 85)
Your task to perform on an android device: What's on my calendar today? Image 92: 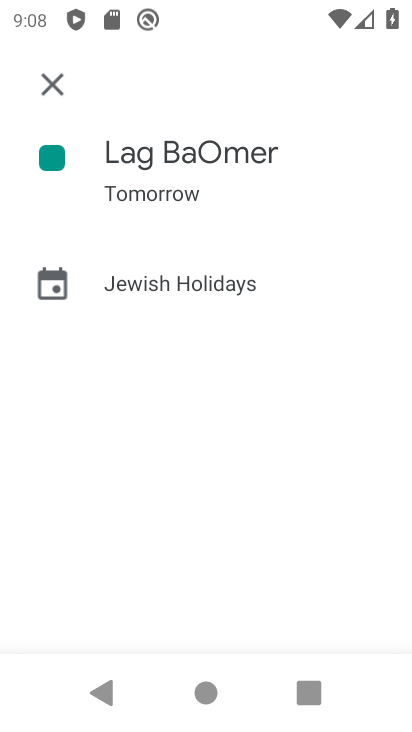
Step 92: click (55, 84)
Your task to perform on an android device: What's on my calendar today? Image 93: 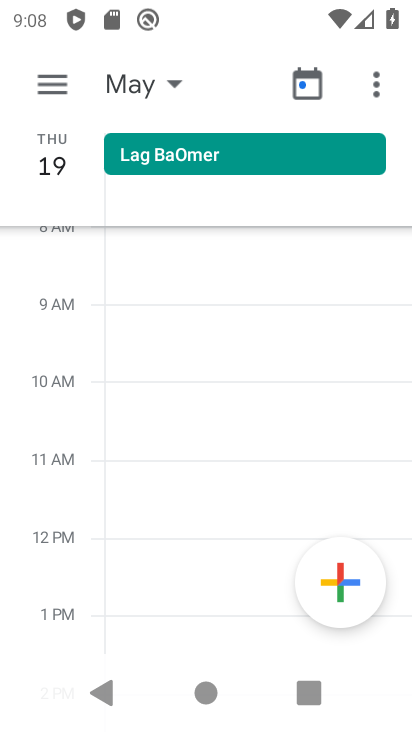
Step 93: click (53, 74)
Your task to perform on an android device: What's on my calendar today? Image 94: 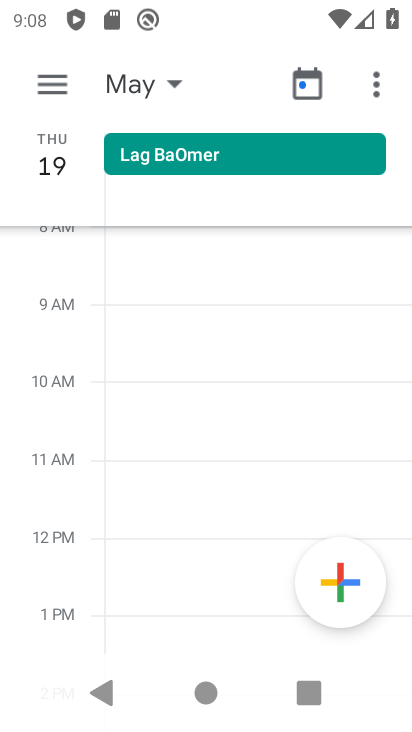
Step 94: click (53, 73)
Your task to perform on an android device: What's on my calendar today? Image 95: 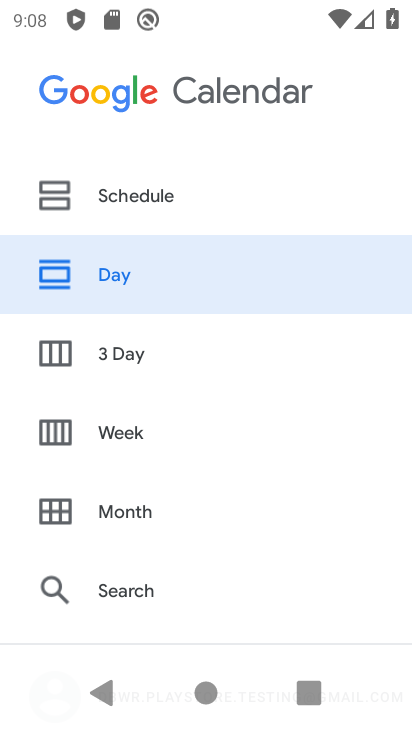
Step 95: click (132, 196)
Your task to perform on an android device: What's on my calendar today? Image 96: 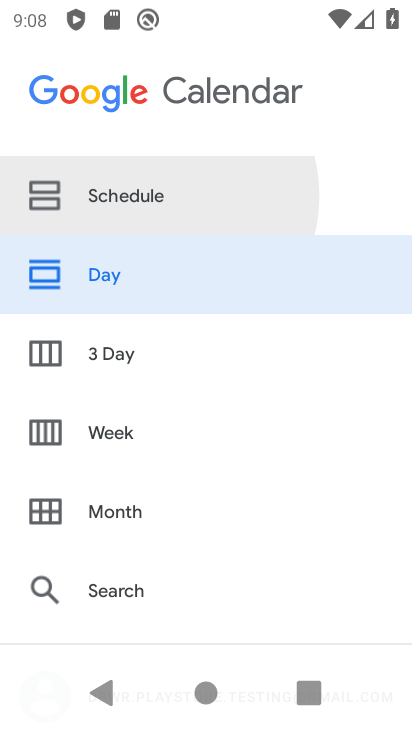
Step 96: click (134, 195)
Your task to perform on an android device: What's on my calendar today? Image 97: 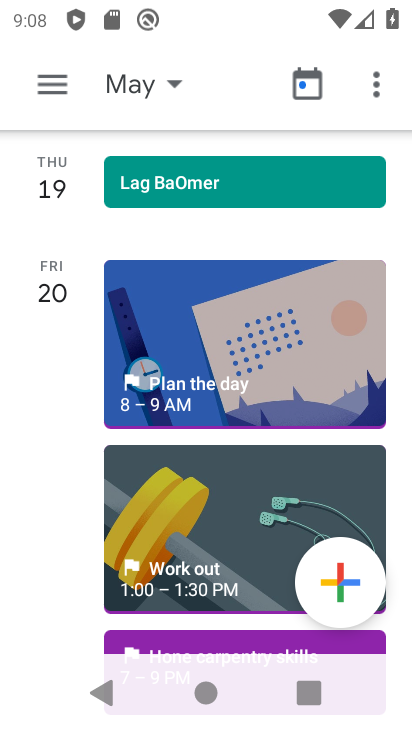
Step 97: drag from (201, 432) to (143, 165)
Your task to perform on an android device: What's on my calendar today? Image 98: 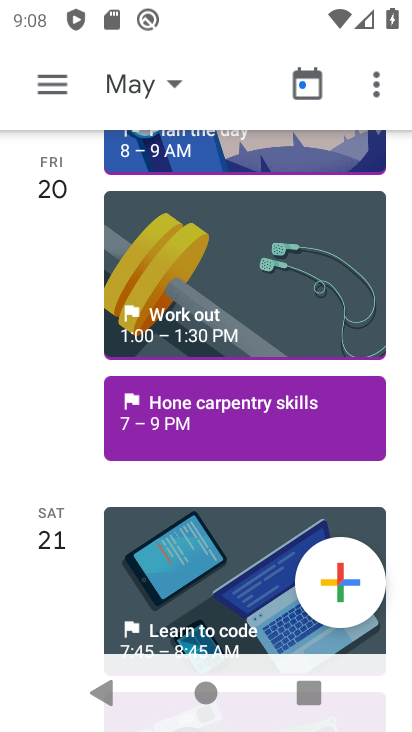
Step 98: drag from (204, 449) to (192, 215)
Your task to perform on an android device: What's on my calendar today? Image 99: 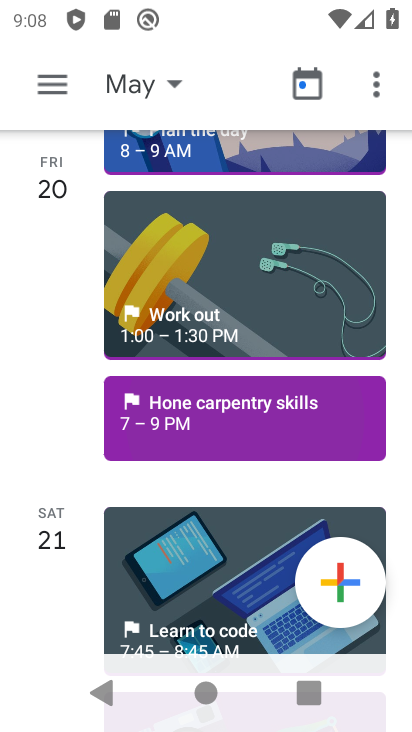
Step 99: drag from (162, 458) to (139, 81)
Your task to perform on an android device: What's on my calendar today? Image 100: 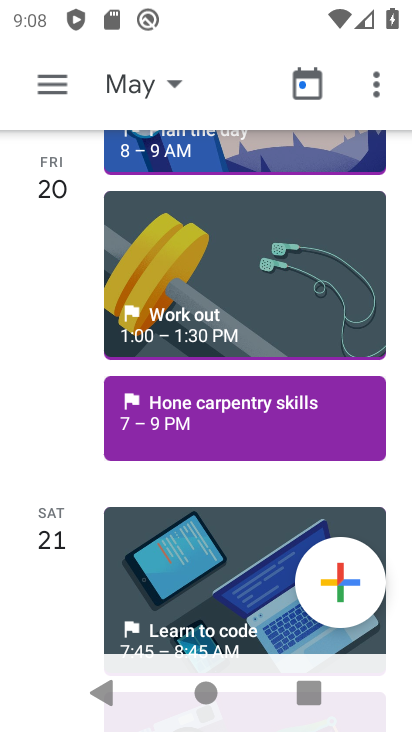
Step 100: drag from (157, 404) to (189, 48)
Your task to perform on an android device: What's on my calendar today? Image 101: 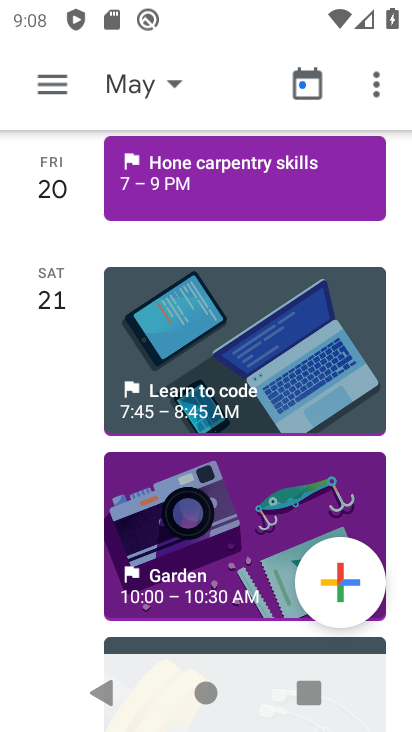
Step 101: drag from (192, 329) to (192, 95)
Your task to perform on an android device: What's on my calendar today? Image 102: 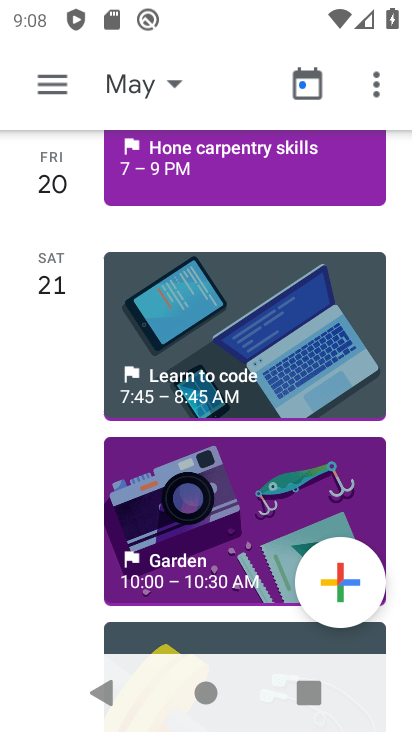
Step 102: drag from (211, 395) to (209, 52)
Your task to perform on an android device: What's on my calendar today? Image 103: 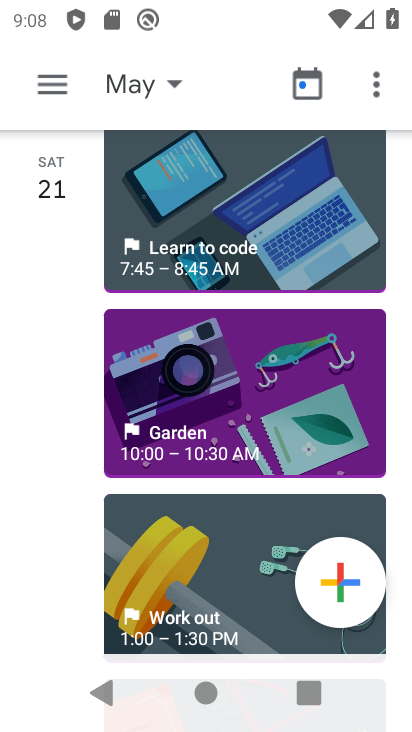
Step 103: drag from (172, 448) to (171, 89)
Your task to perform on an android device: What's on my calendar today? Image 104: 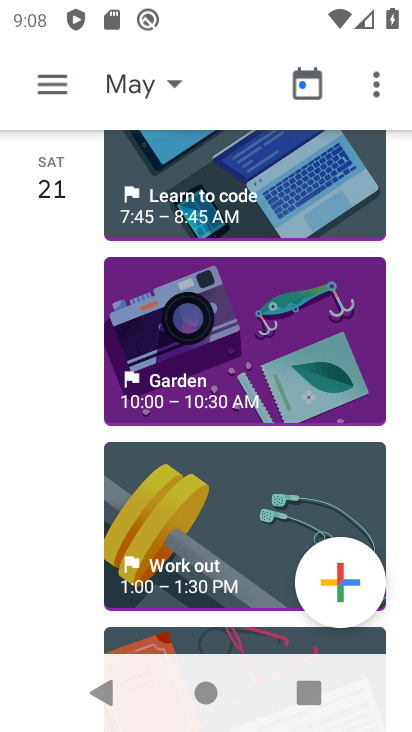
Step 104: drag from (186, 470) to (174, 123)
Your task to perform on an android device: What's on my calendar today? Image 105: 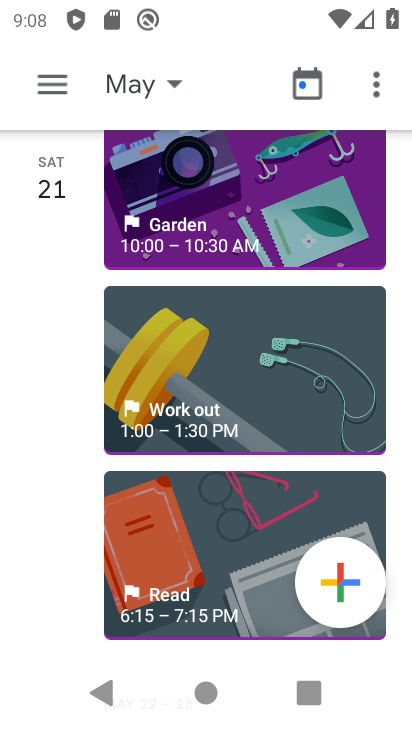
Step 105: drag from (215, 526) to (206, 123)
Your task to perform on an android device: What's on my calendar today? Image 106: 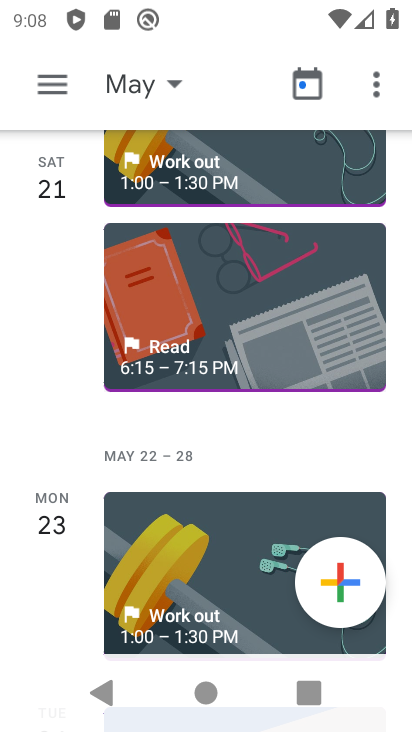
Step 106: drag from (172, 356) to (165, 177)
Your task to perform on an android device: What's on my calendar today? Image 107: 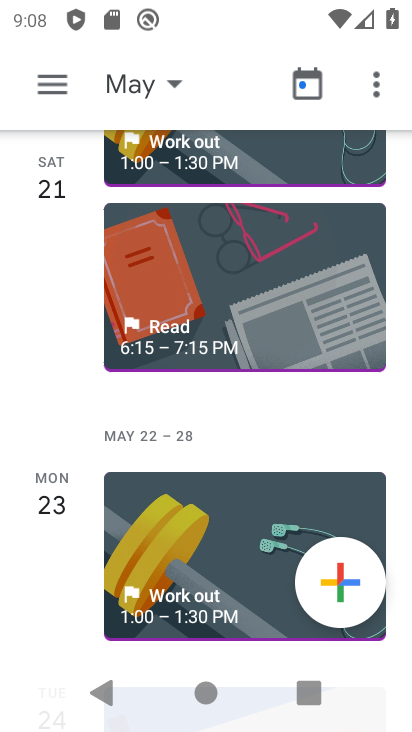
Step 107: click (180, 172)
Your task to perform on an android device: What's on my calendar today? Image 108: 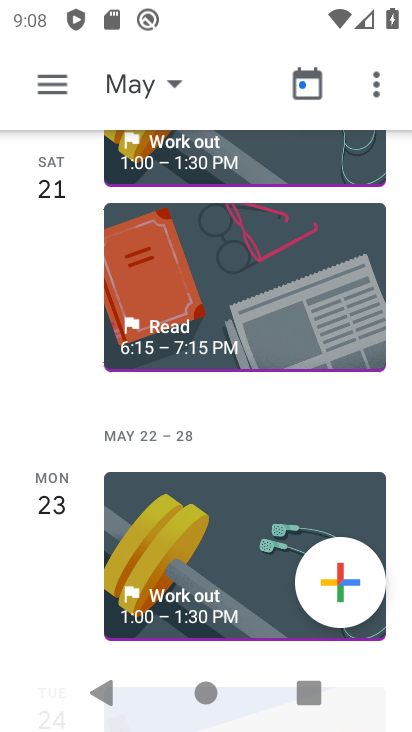
Step 108: drag from (189, 325) to (177, 220)
Your task to perform on an android device: What's on my calendar today? Image 109: 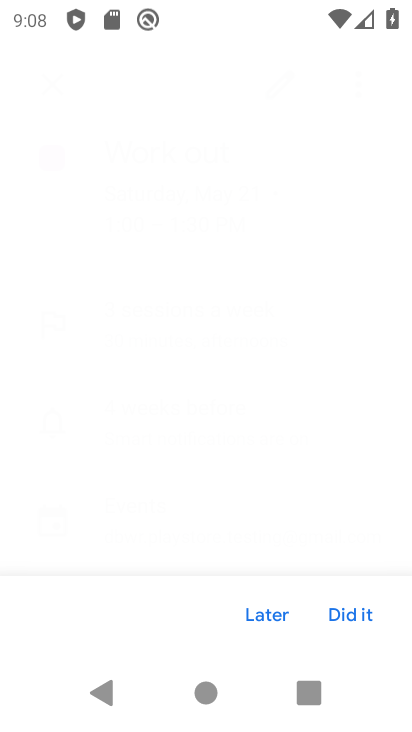
Step 109: drag from (135, 183) to (191, 421)
Your task to perform on an android device: What's on my calendar today? Image 110: 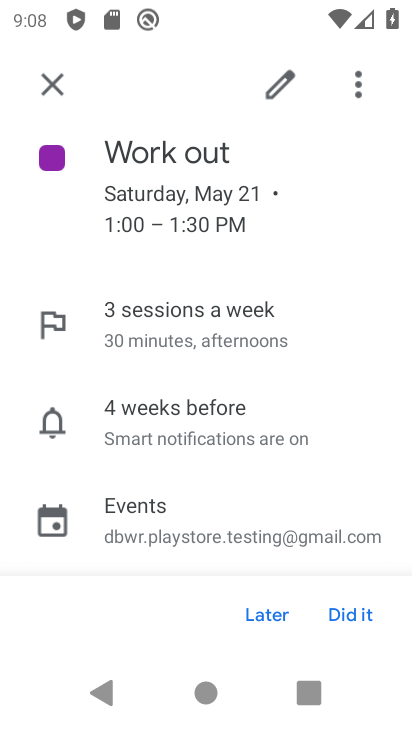
Step 110: click (269, 614)
Your task to perform on an android device: What's on my calendar today? Image 111: 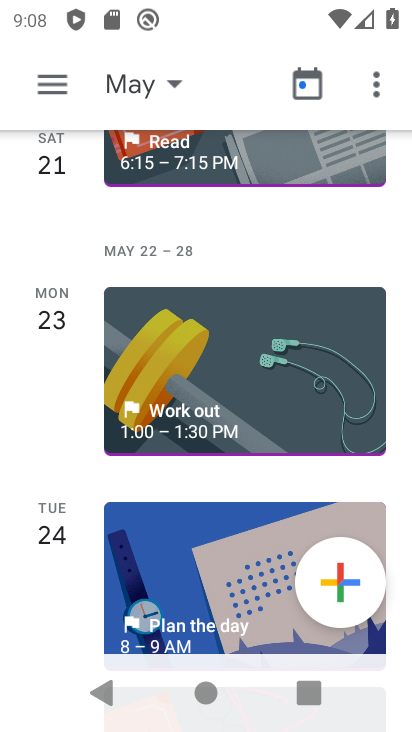
Step 111: task complete